Your task to perform on an android device: install app "Mercado Libre" Image 0: 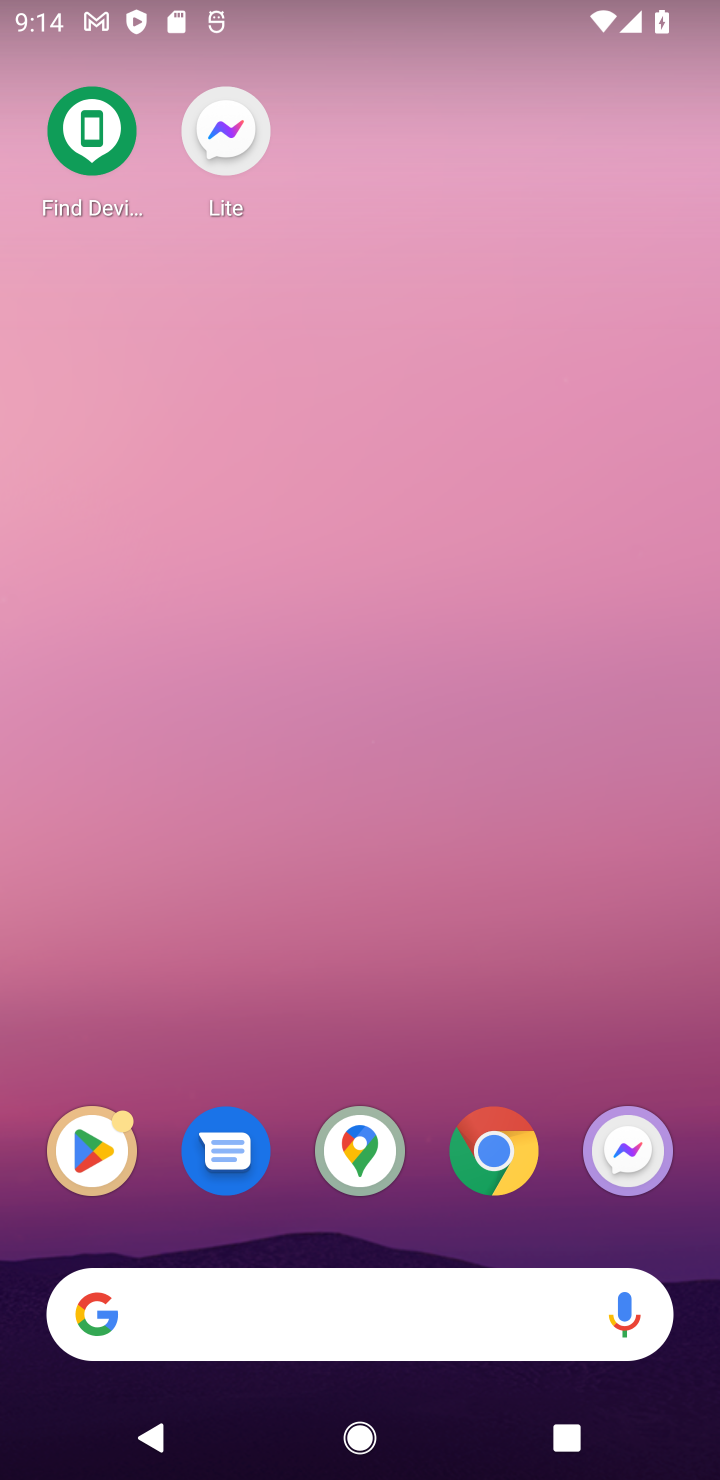
Step 0: drag from (424, 1243) to (319, 281)
Your task to perform on an android device: install app "Mercado Libre" Image 1: 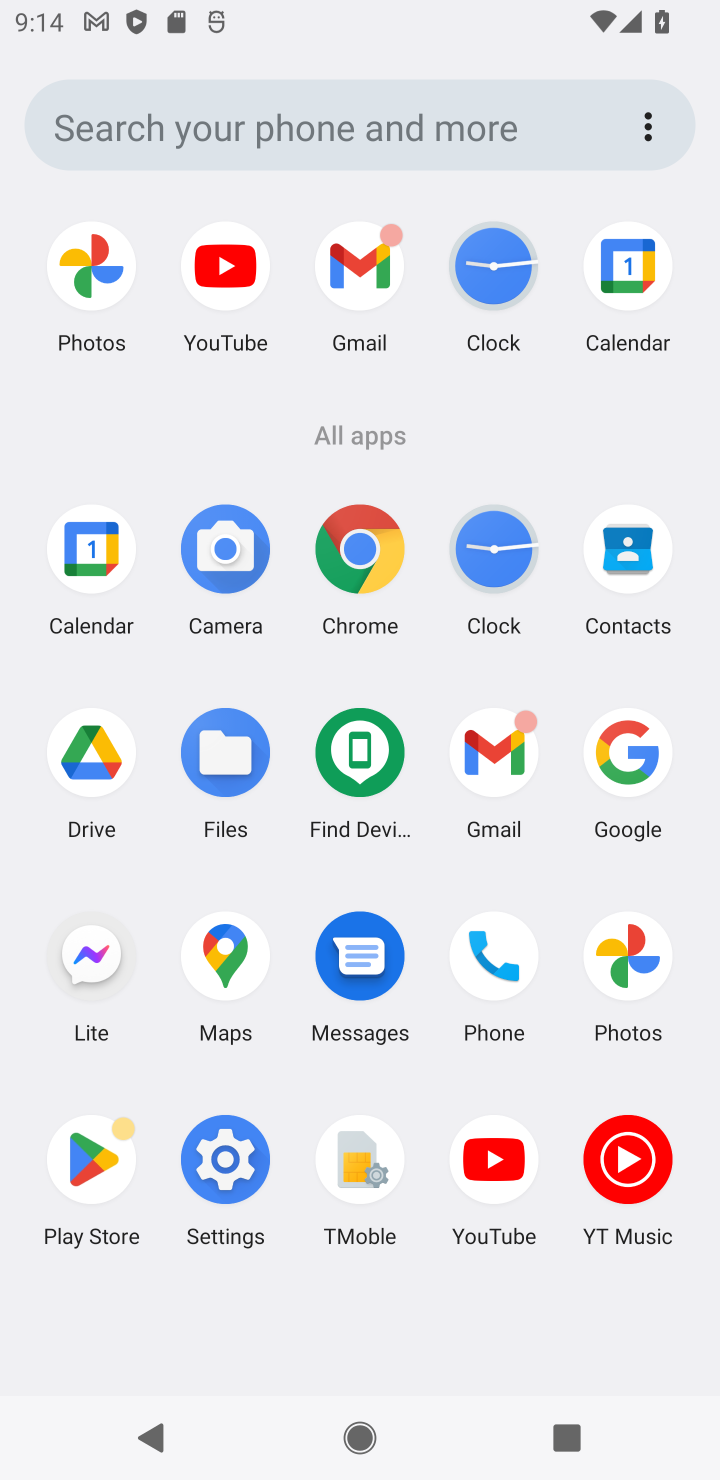
Step 1: click (80, 1169)
Your task to perform on an android device: install app "Mercado Libre" Image 2: 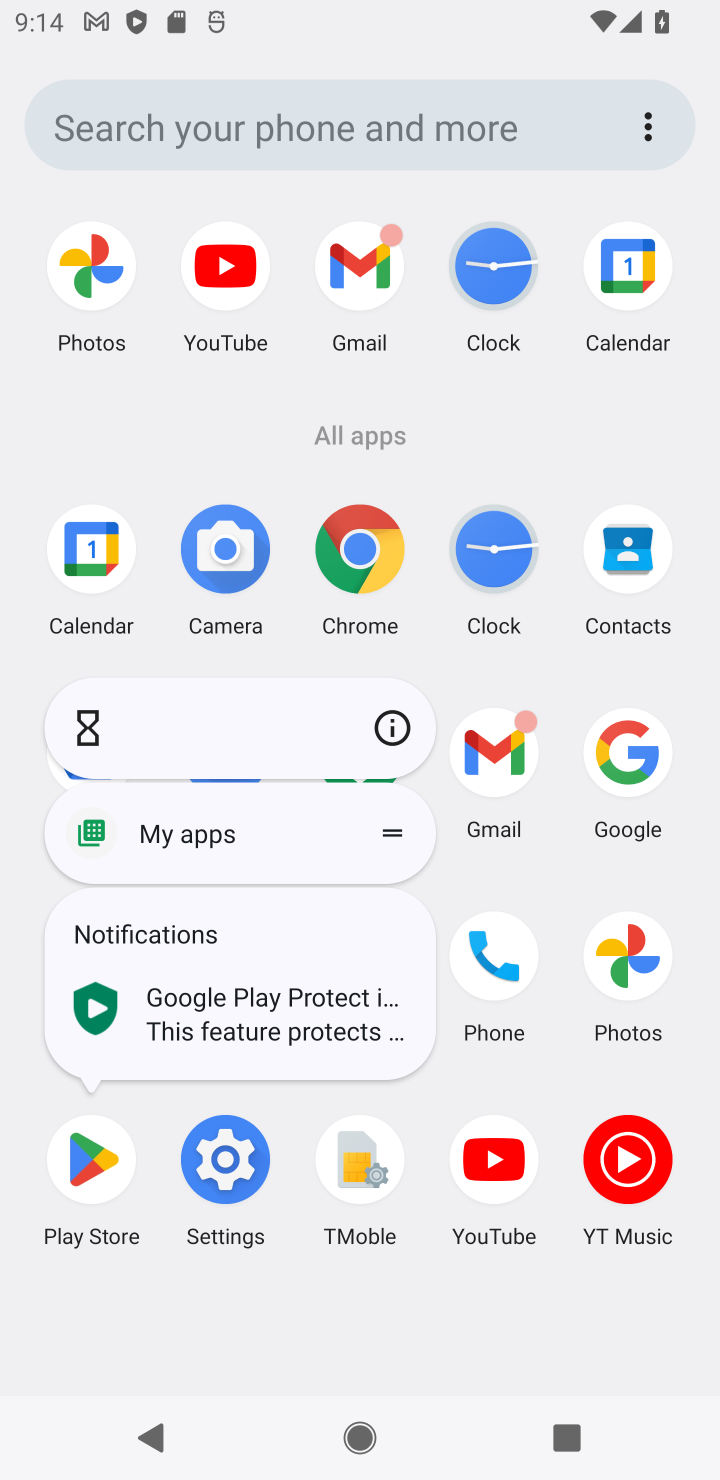
Step 2: click (77, 1173)
Your task to perform on an android device: install app "Mercado Libre" Image 3: 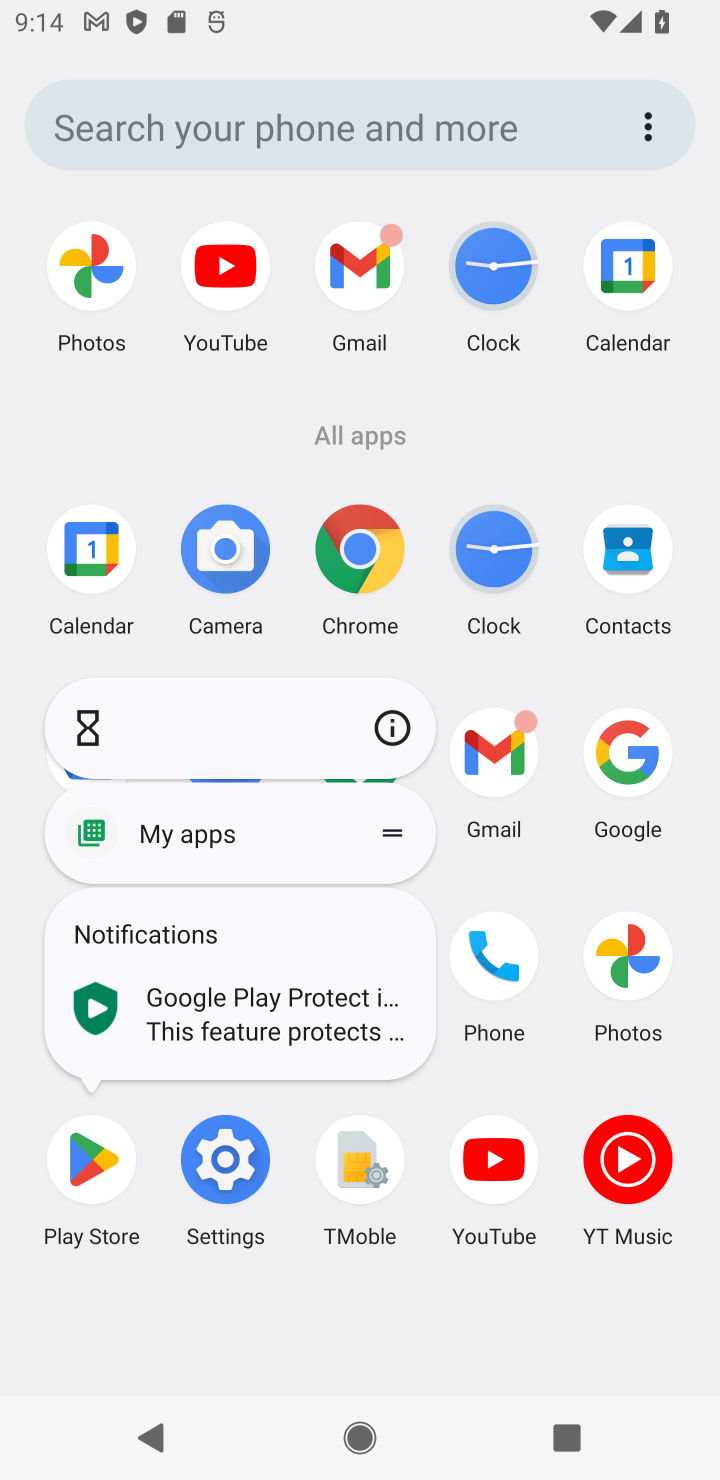
Step 3: click (100, 1183)
Your task to perform on an android device: install app "Mercado Libre" Image 4: 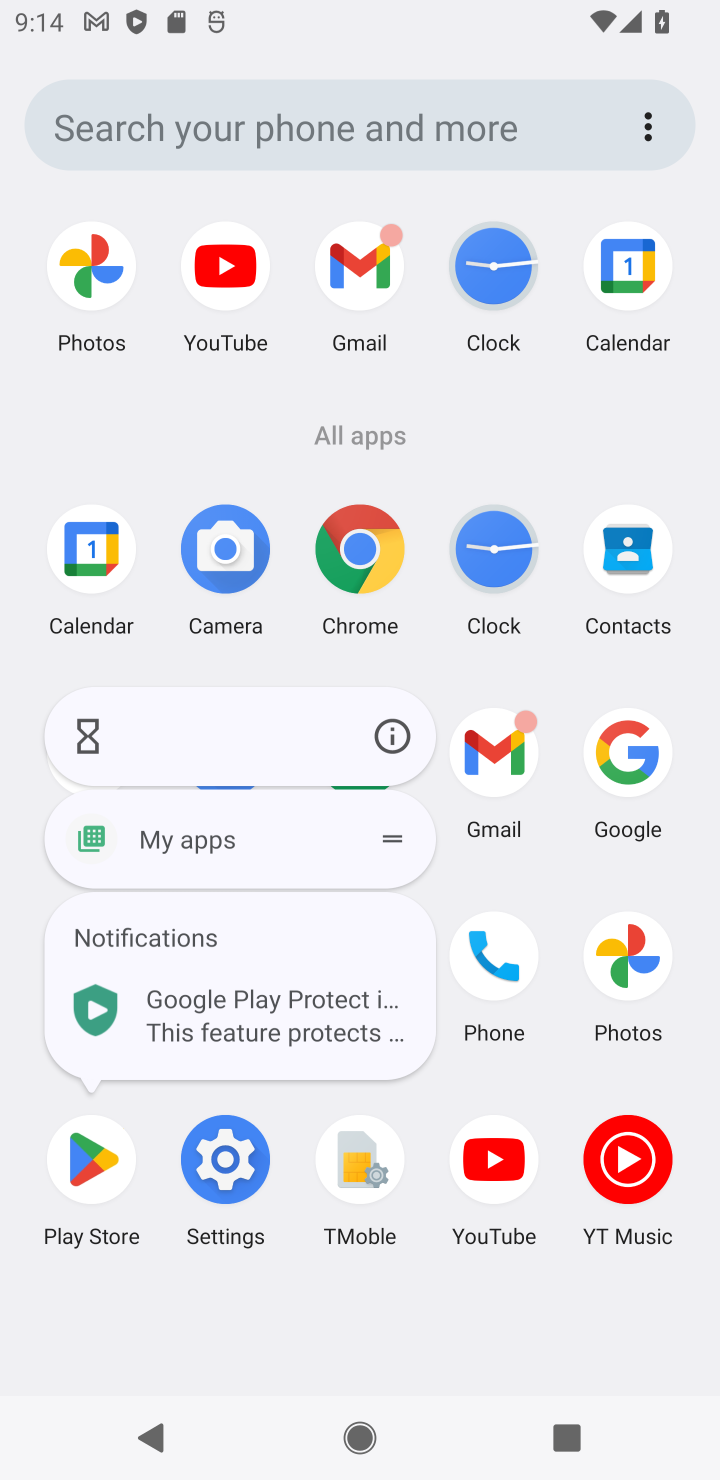
Step 4: click (109, 1183)
Your task to perform on an android device: install app "Mercado Libre" Image 5: 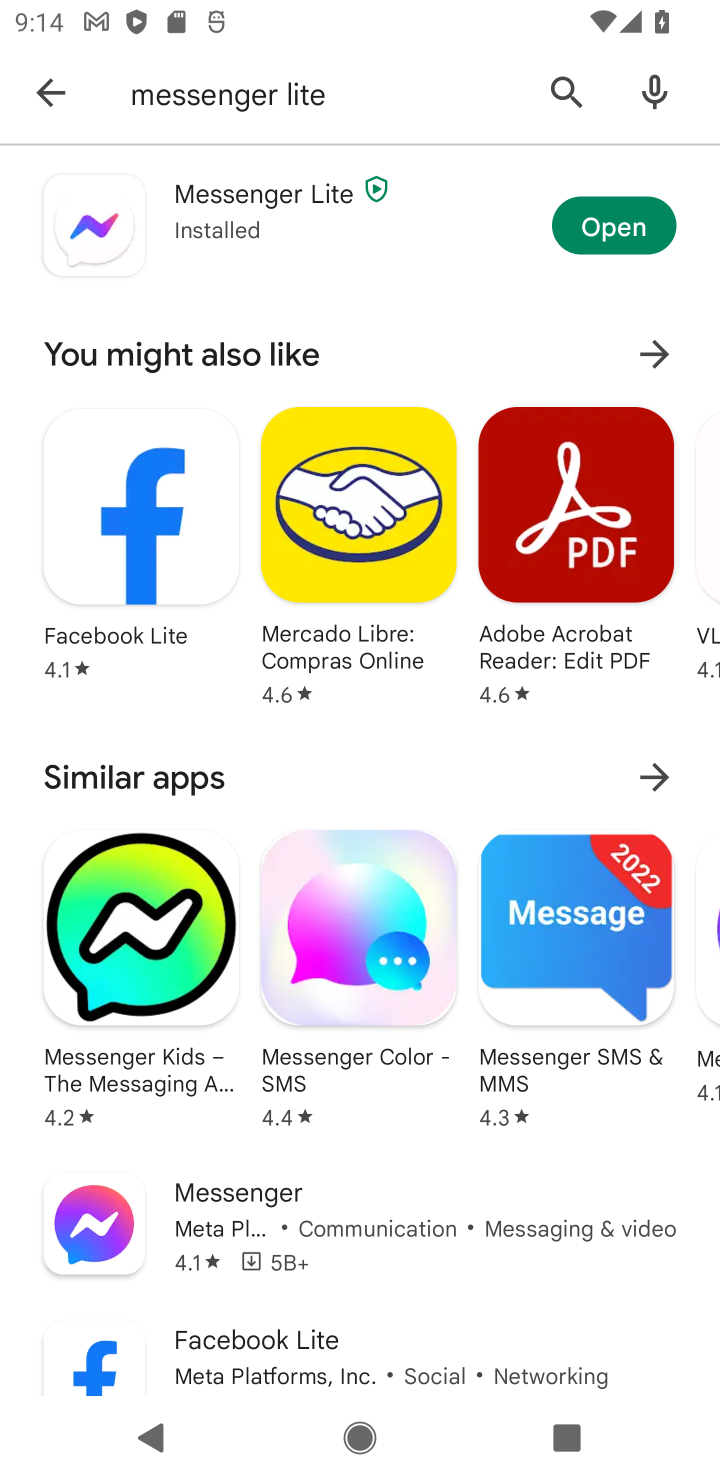
Step 5: click (131, 1218)
Your task to perform on an android device: install app "Mercado Libre" Image 6: 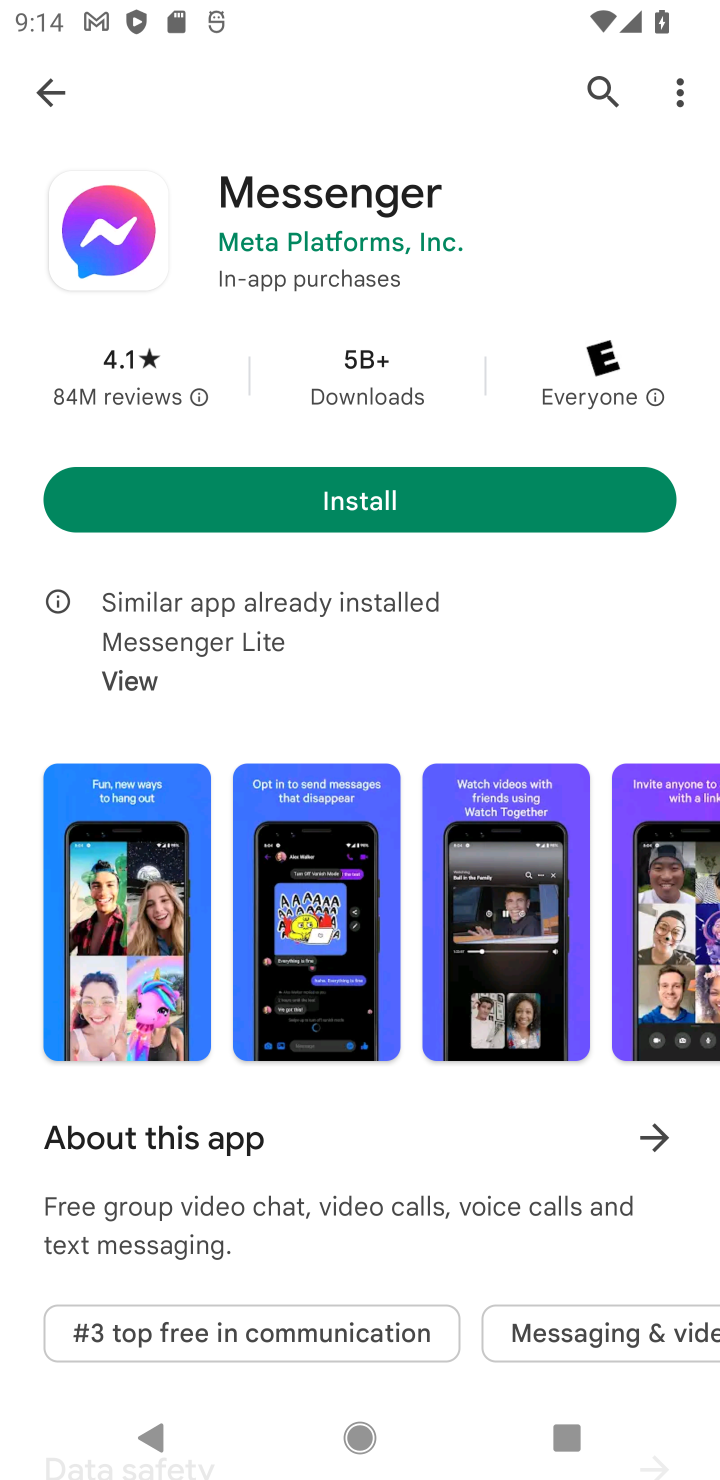
Step 6: click (45, 91)
Your task to perform on an android device: install app "Mercado Libre" Image 7: 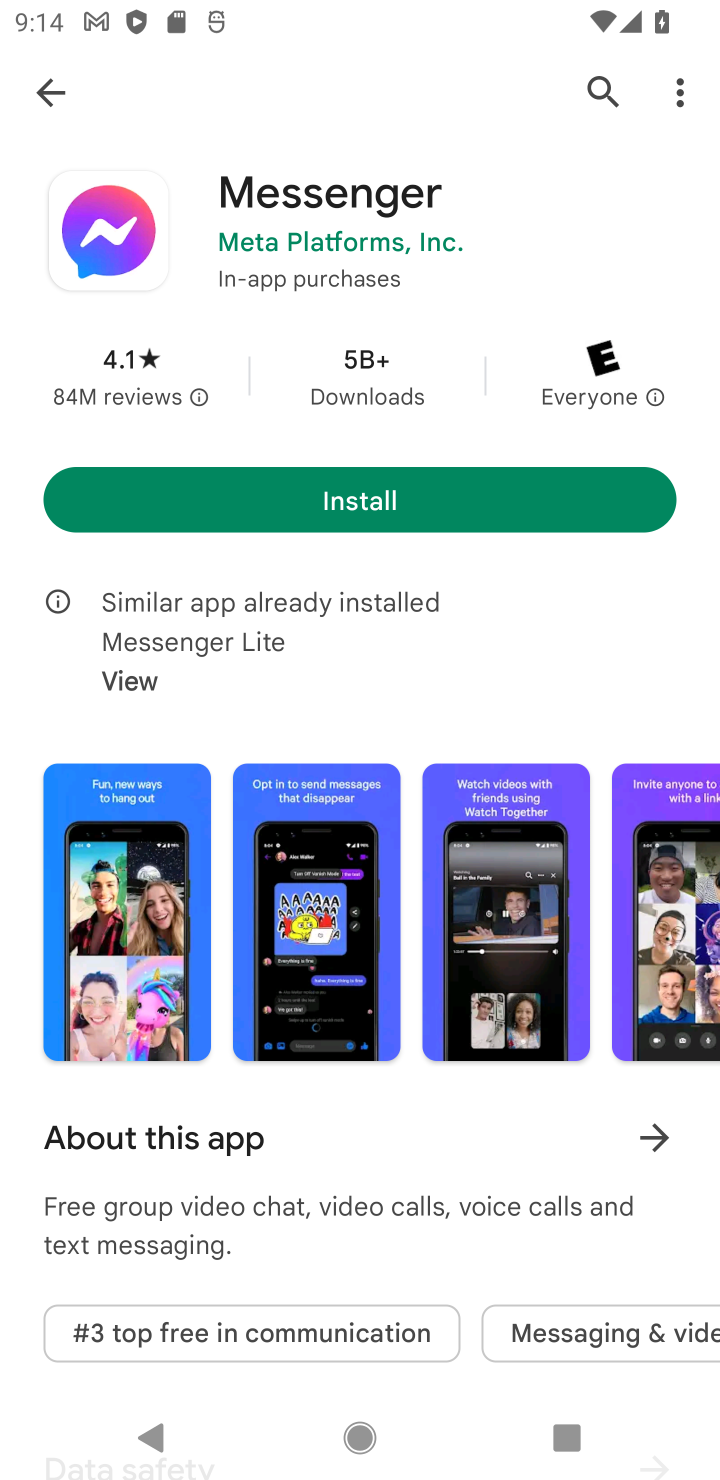
Step 7: click (40, 90)
Your task to perform on an android device: install app "Mercado Libre" Image 8: 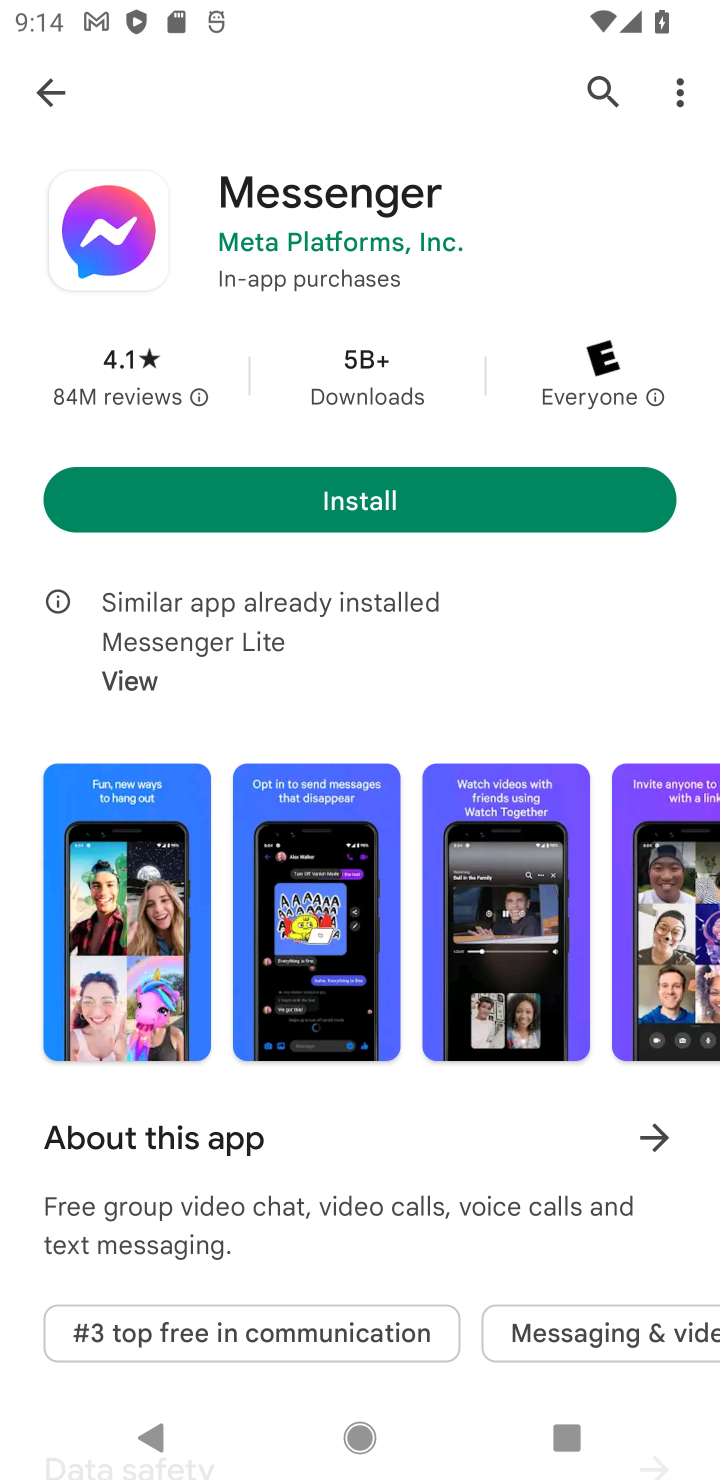
Step 8: click (57, 72)
Your task to perform on an android device: install app "Mercado Libre" Image 9: 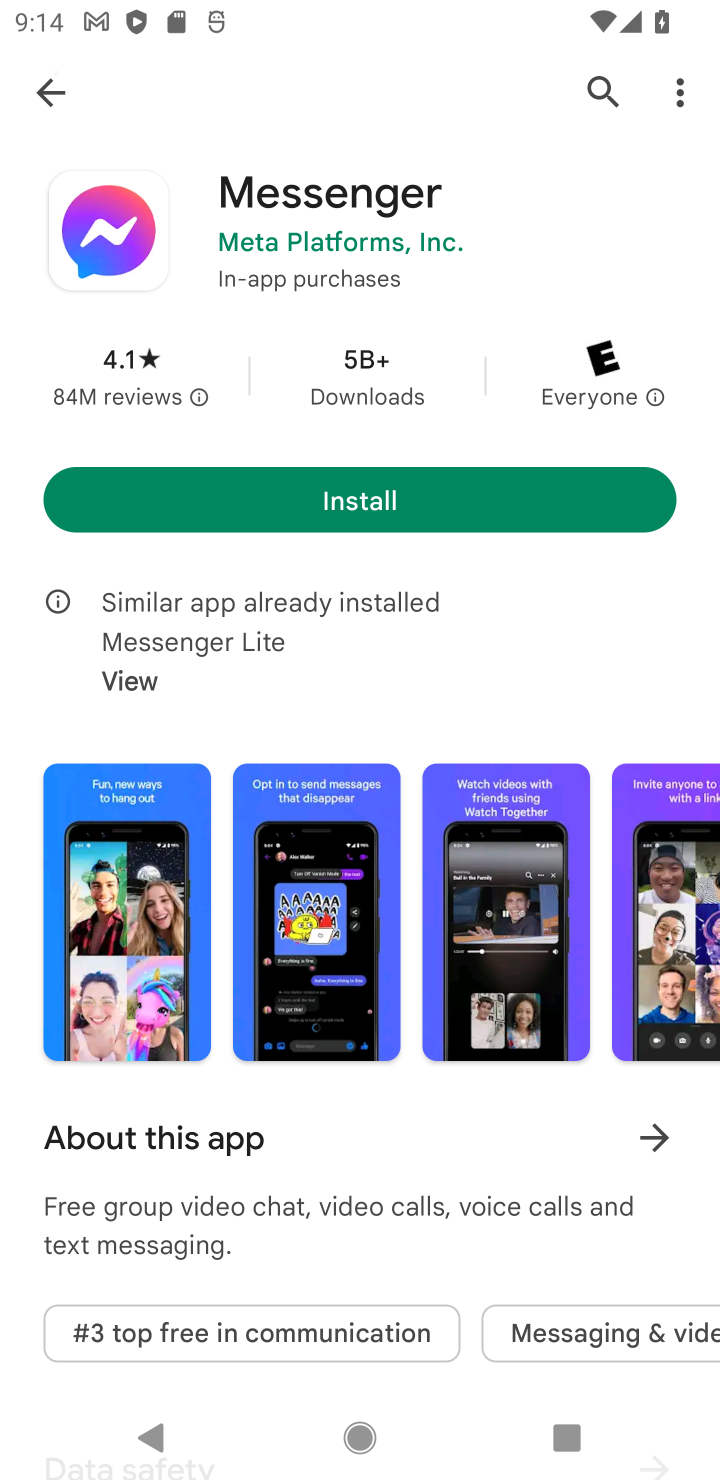
Step 9: click (53, 74)
Your task to perform on an android device: install app "Mercado Libre" Image 10: 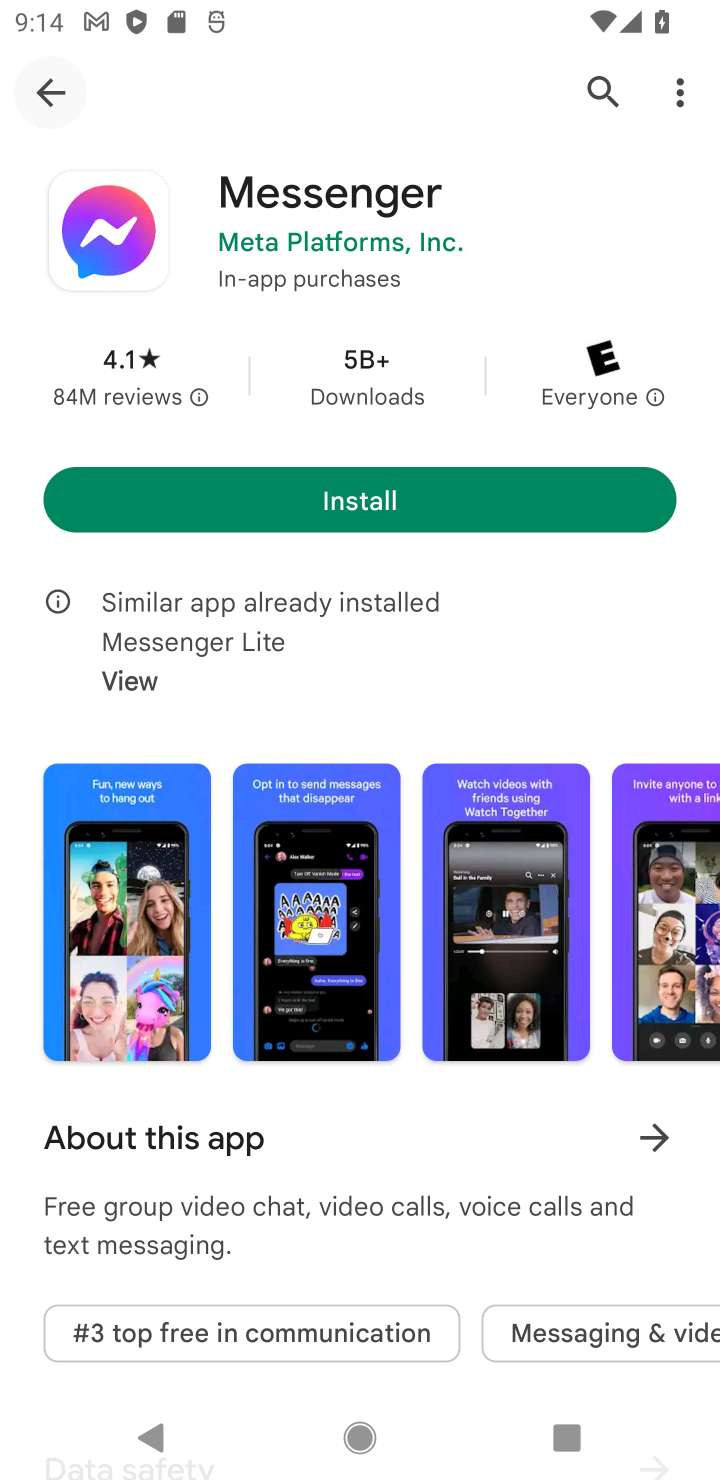
Step 10: click (62, 68)
Your task to perform on an android device: install app "Mercado Libre" Image 11: 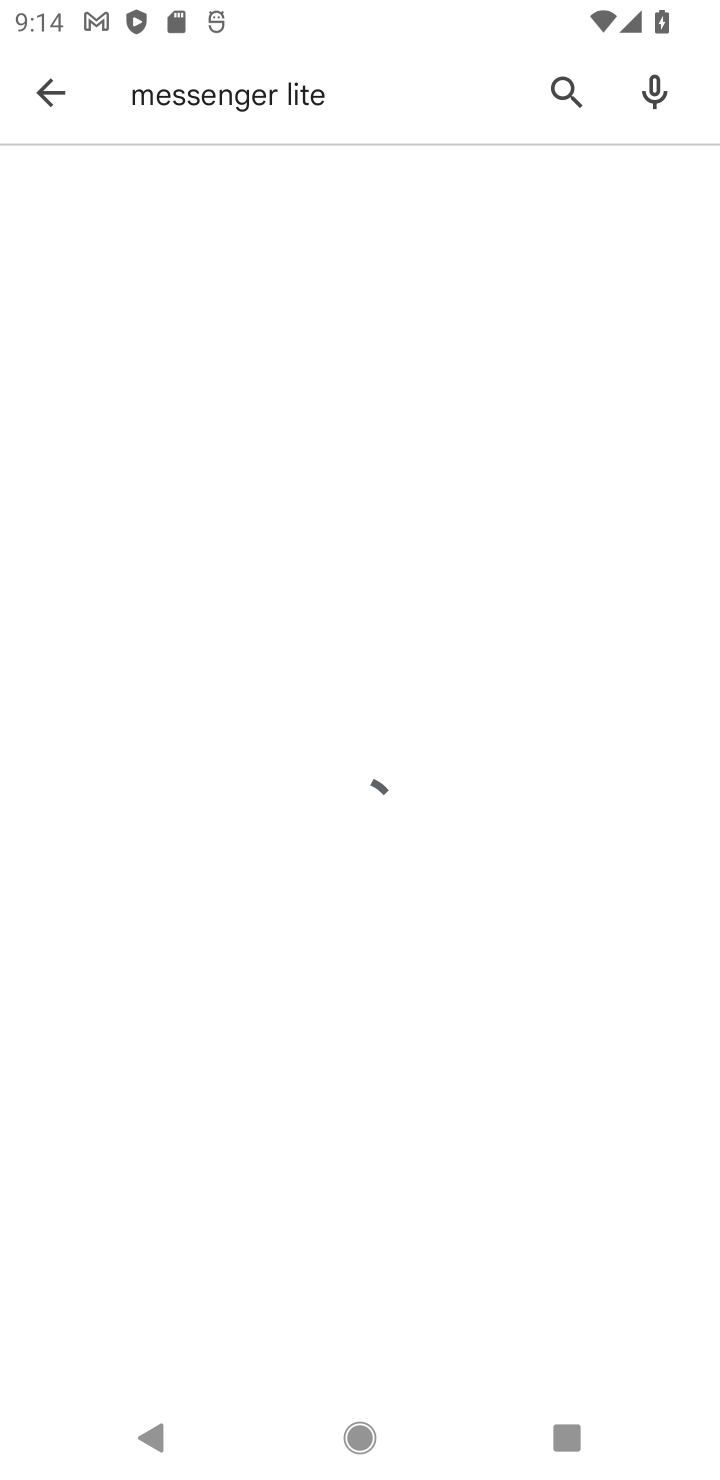
Step 11: click (65, 85)
Your task to perform on an android device: install app "Mercado Libre" Image 12: 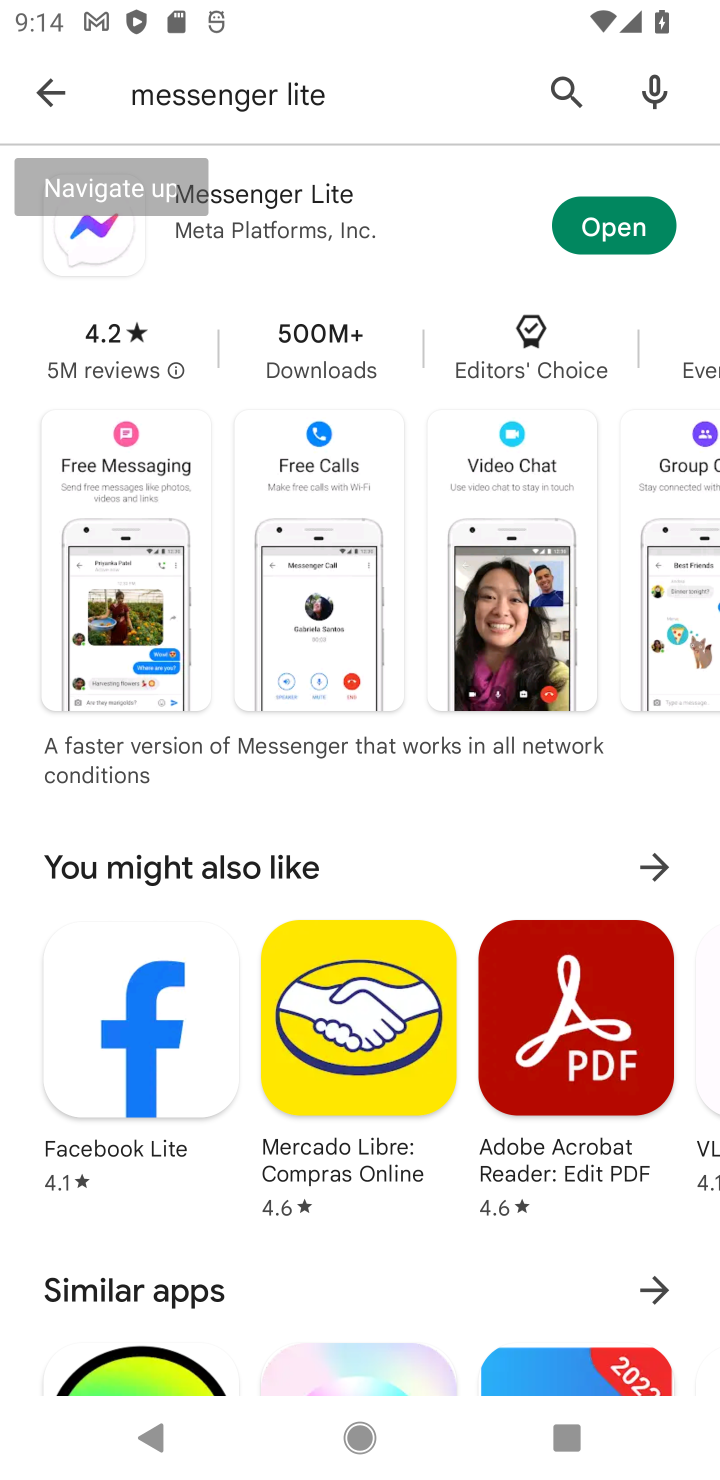
Step 12: click (46, 100)
Your task to perform on an android device: install app "Mercado Libre" Image 13: 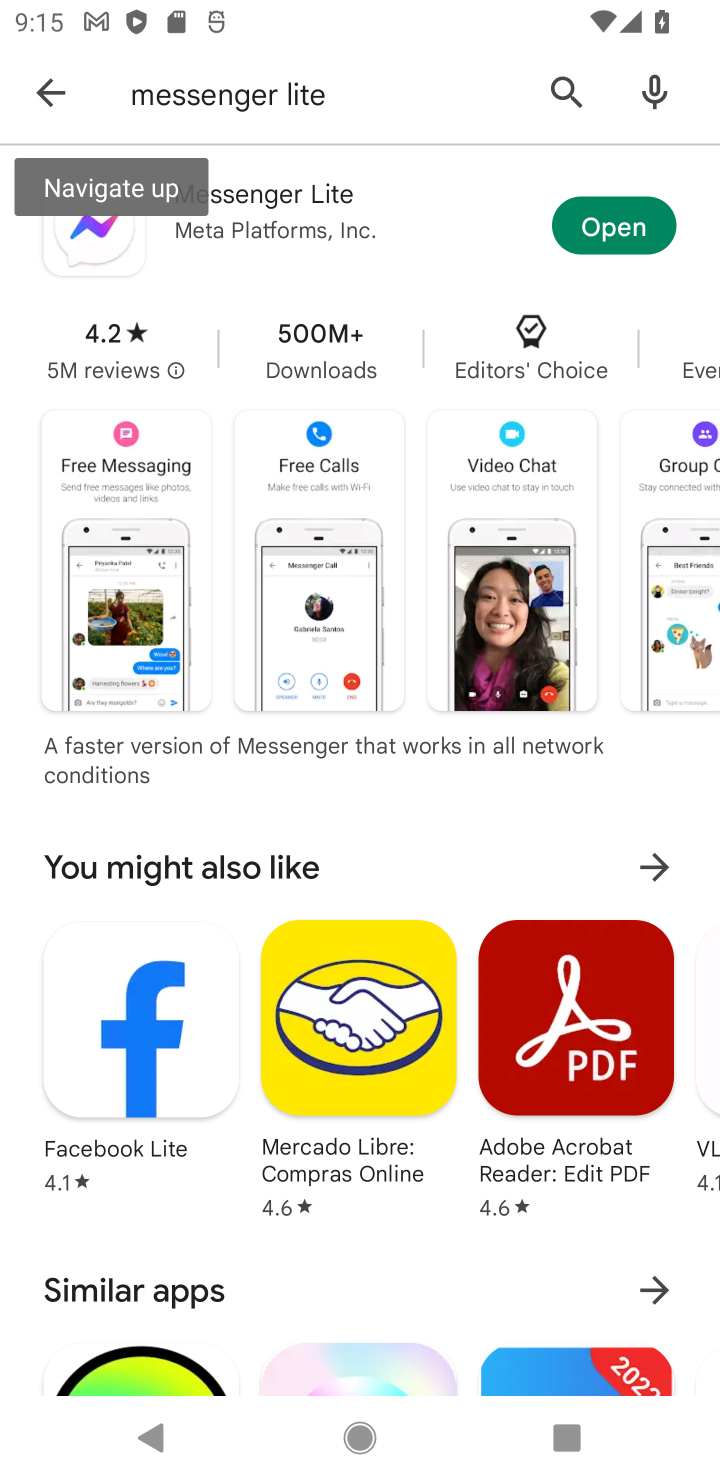
Step 13: click (54, 85)
Your task to perform on an android device: install app "Mercado Libre" Image 14: 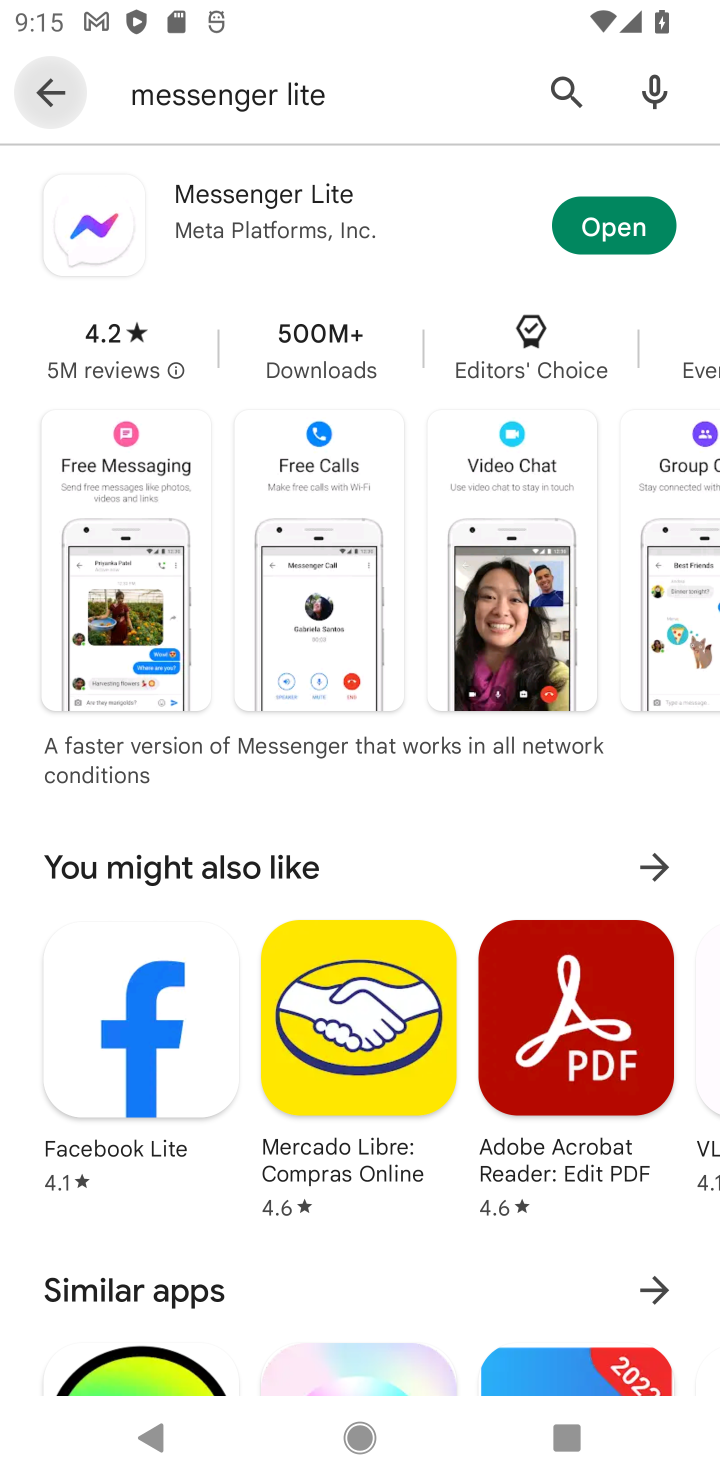
Step 14: click (163, 97)
Your task to perform on an android device: install app "Mercado Libre" Image 15: 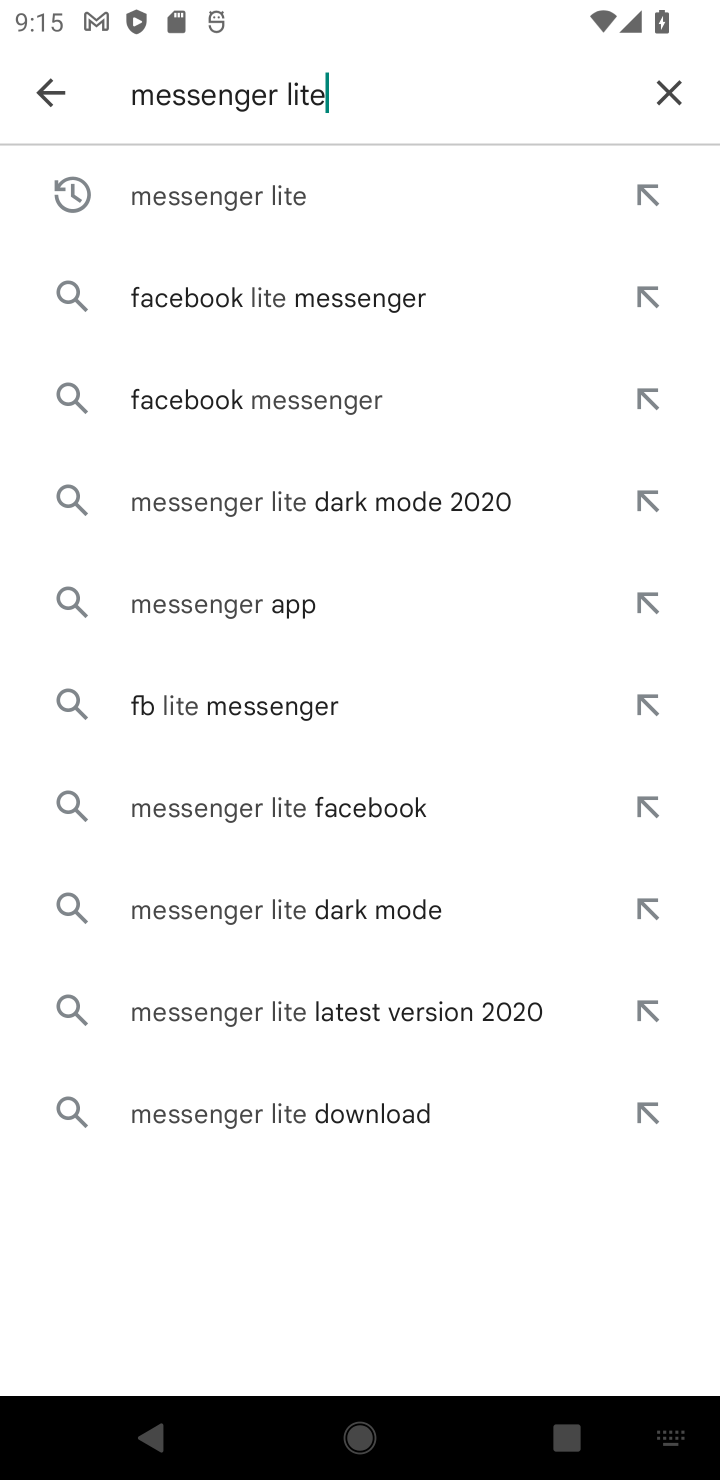
Step 15: click (48, 81)
Your task to perform on an android device: install app "Mercado Libre" Image 16: 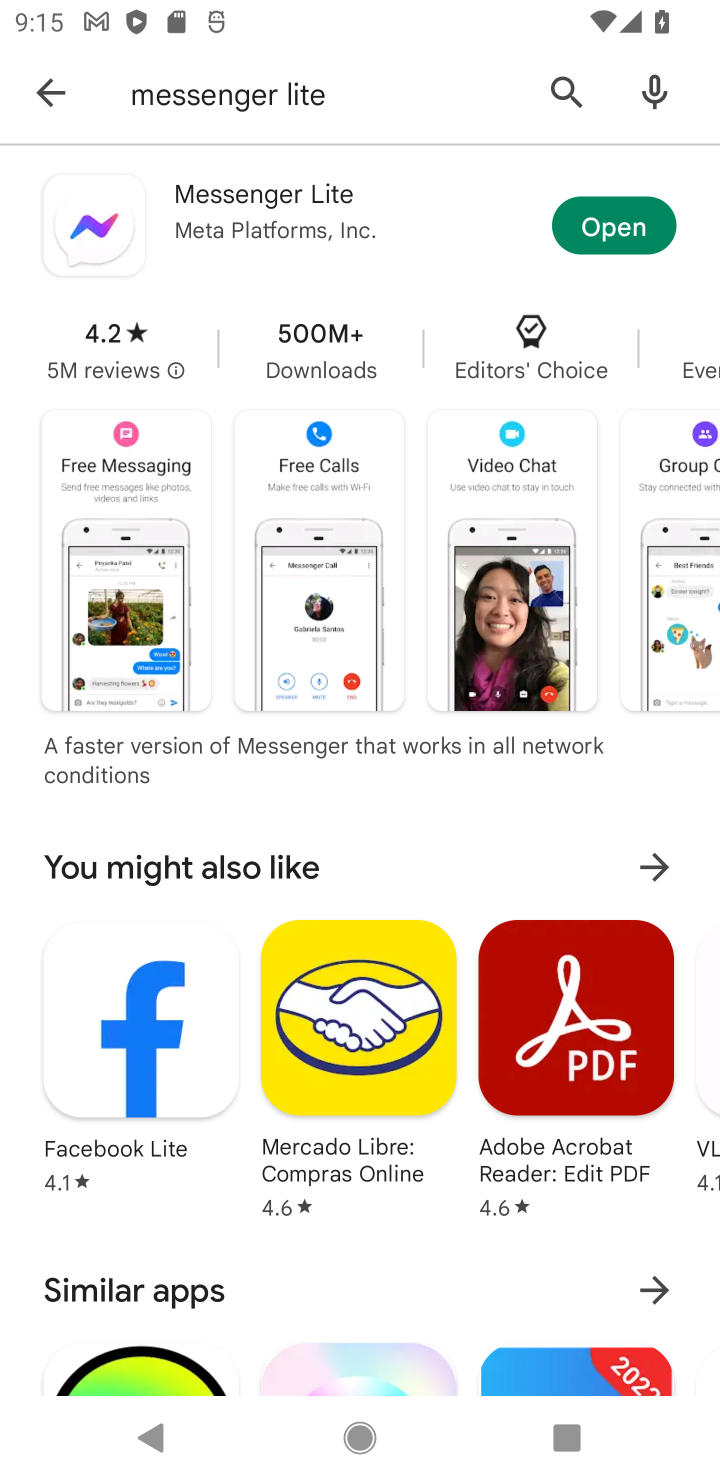
Step 16: click (672, 62)
Your task to perform on an android device: install app "Mercado Libre" Image 17: 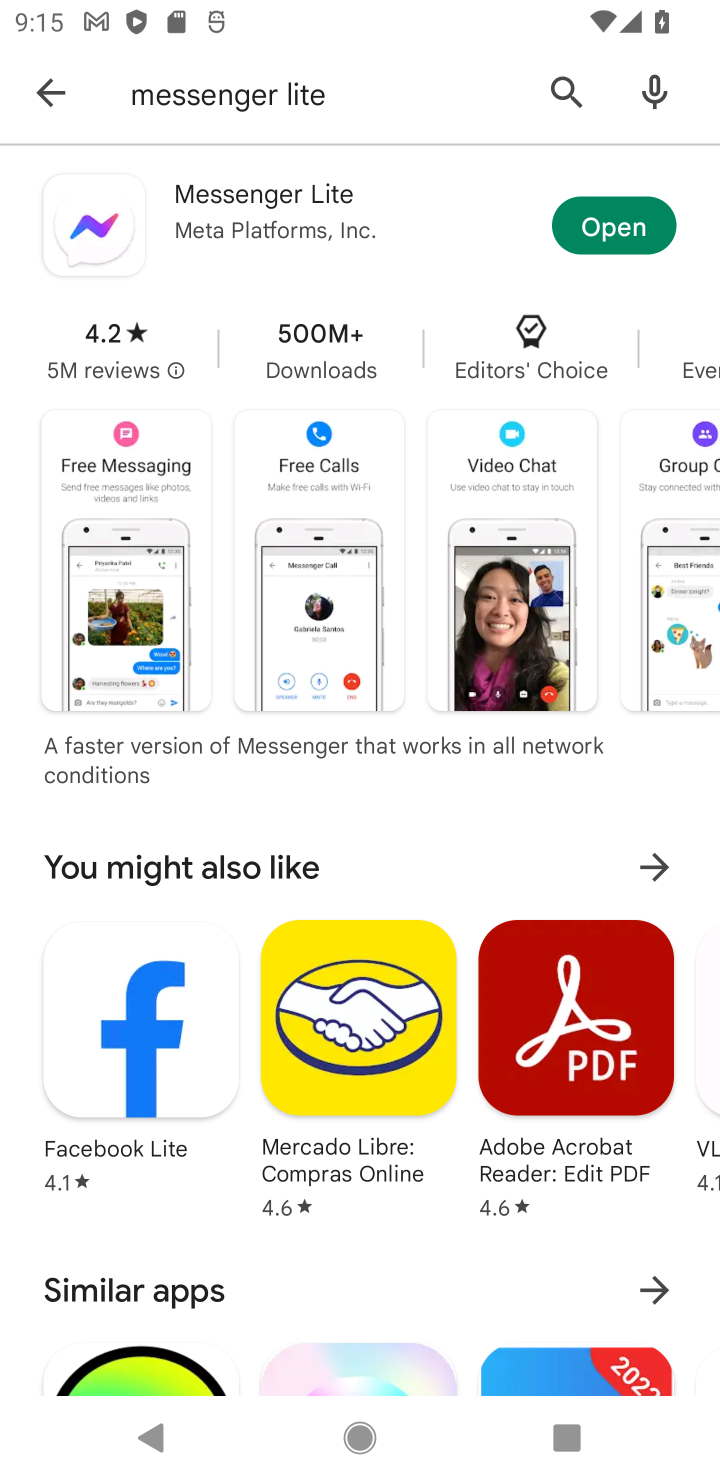
Step 17: click (661, 76)
Your task to perform on an android device: install app "Mercado Libre" Image 18: 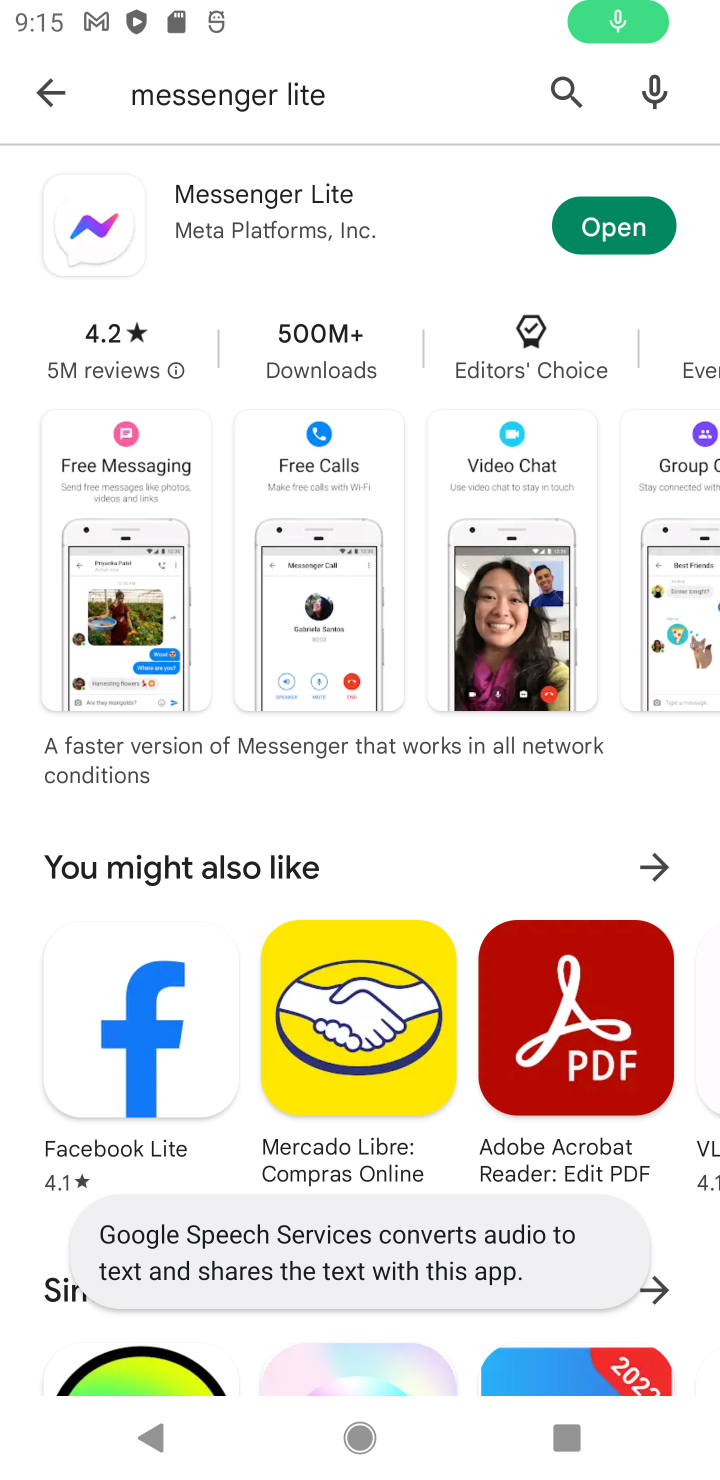
Step 18: drag from (66, 90) to (326, 98)
Your task to perform on an android device: install app "Mercado Libre" Image 19: 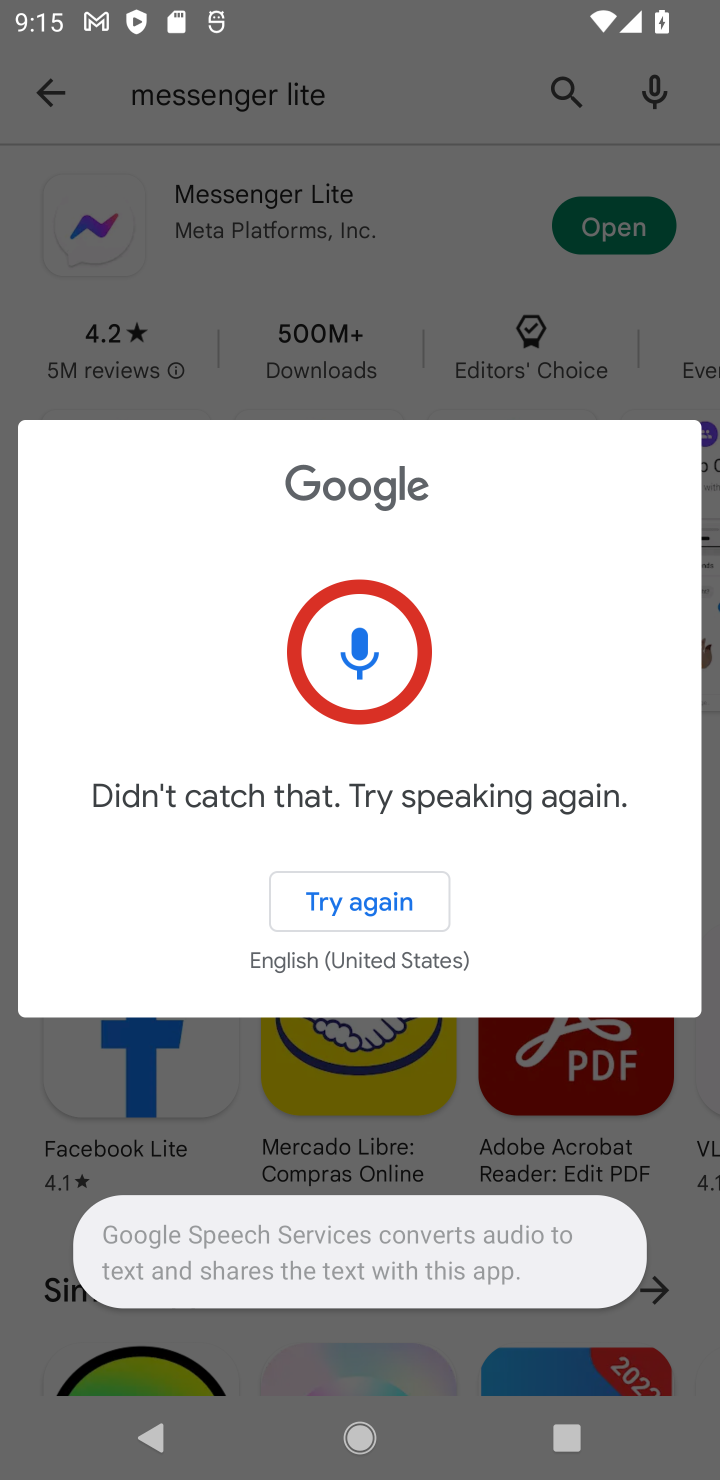
Step 19: click (234, 346)
Your task to perform on an android device: install app "Mercado Libre" Image 20: 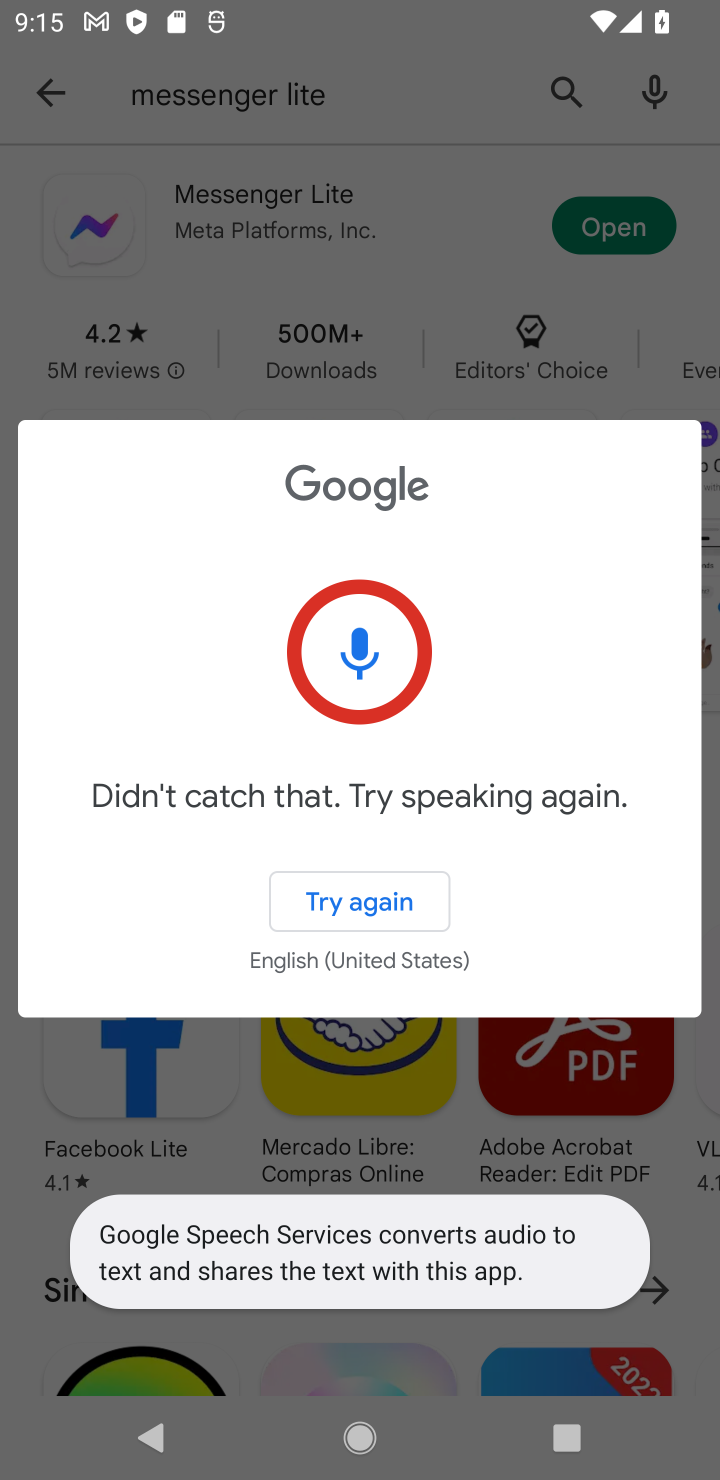
Step 20: click (236, 344)
Your task to perform on an android device: install app "Mercado Libre" Image 21: 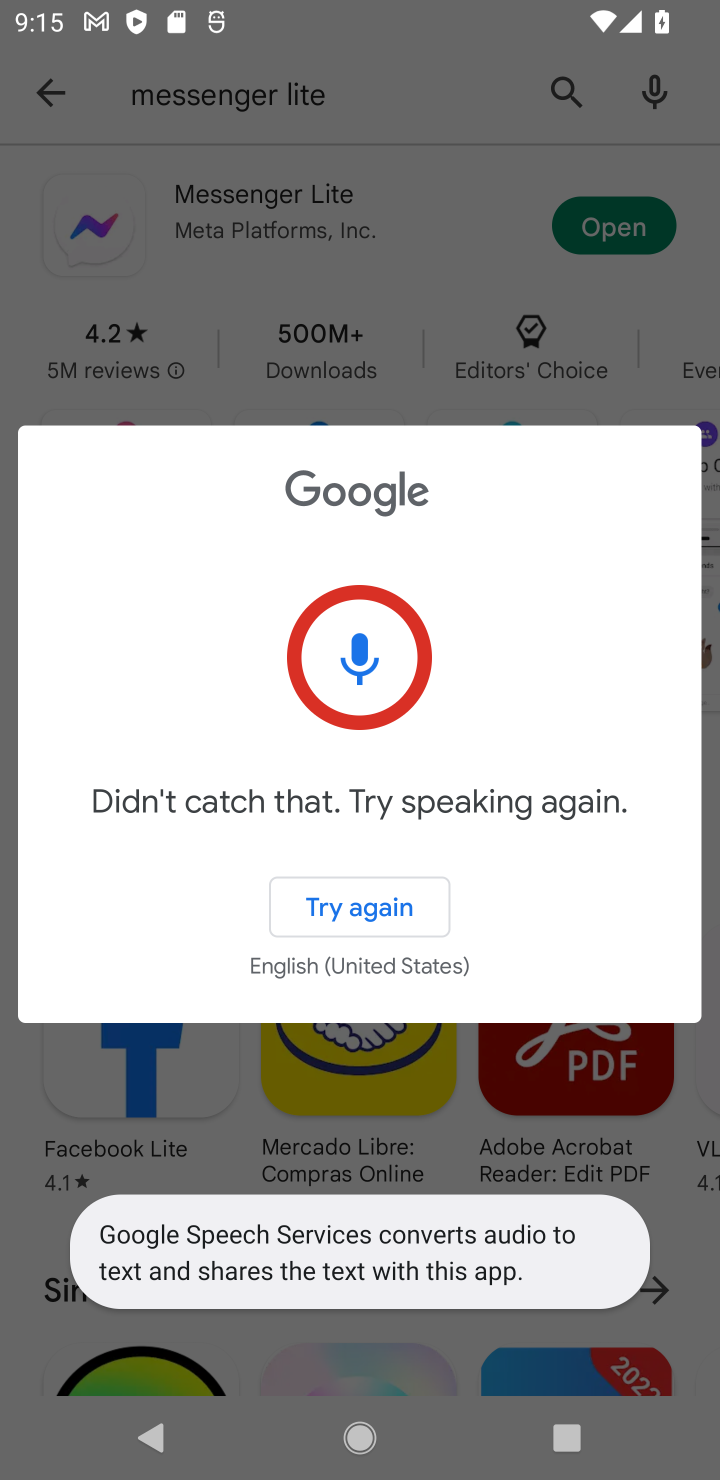
Step 21: click (46, 93)
Your task to perform on an android device: install app "Mercado Libre" Image 22: 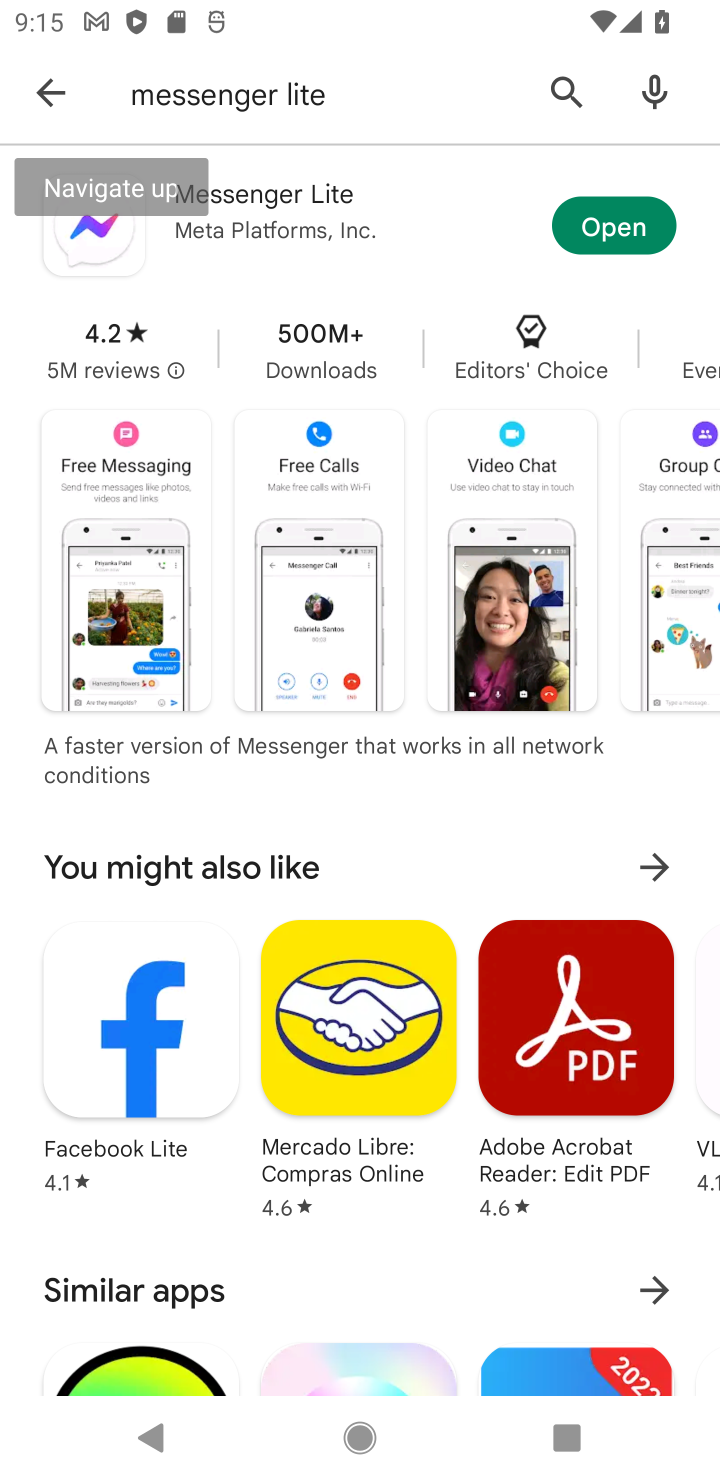
Step 22: click (58, 84)
Your task to perform on an android device: install app "Mercado Libre" Image 23: 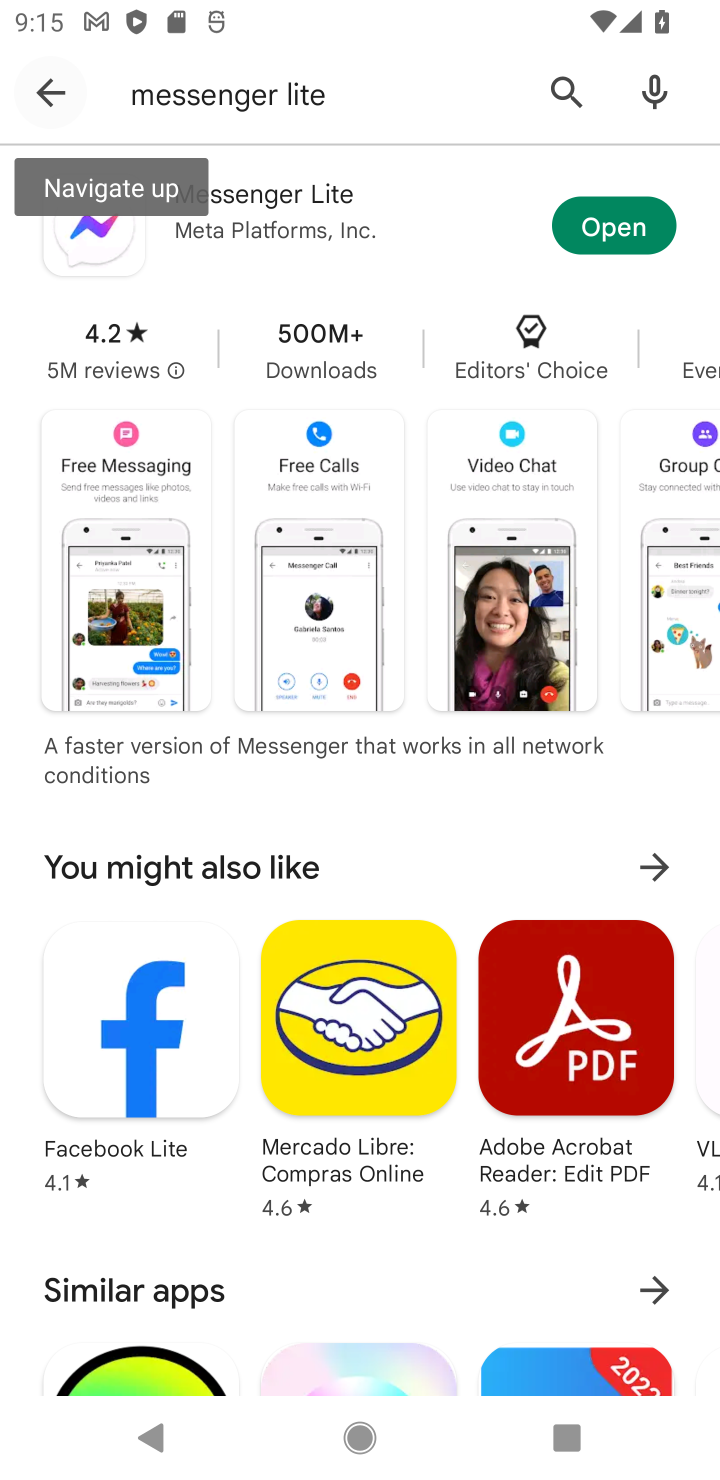
Step 23: click (334, 97)
Your task to perform on an android device: install app "Mercado Libre" Image 24: 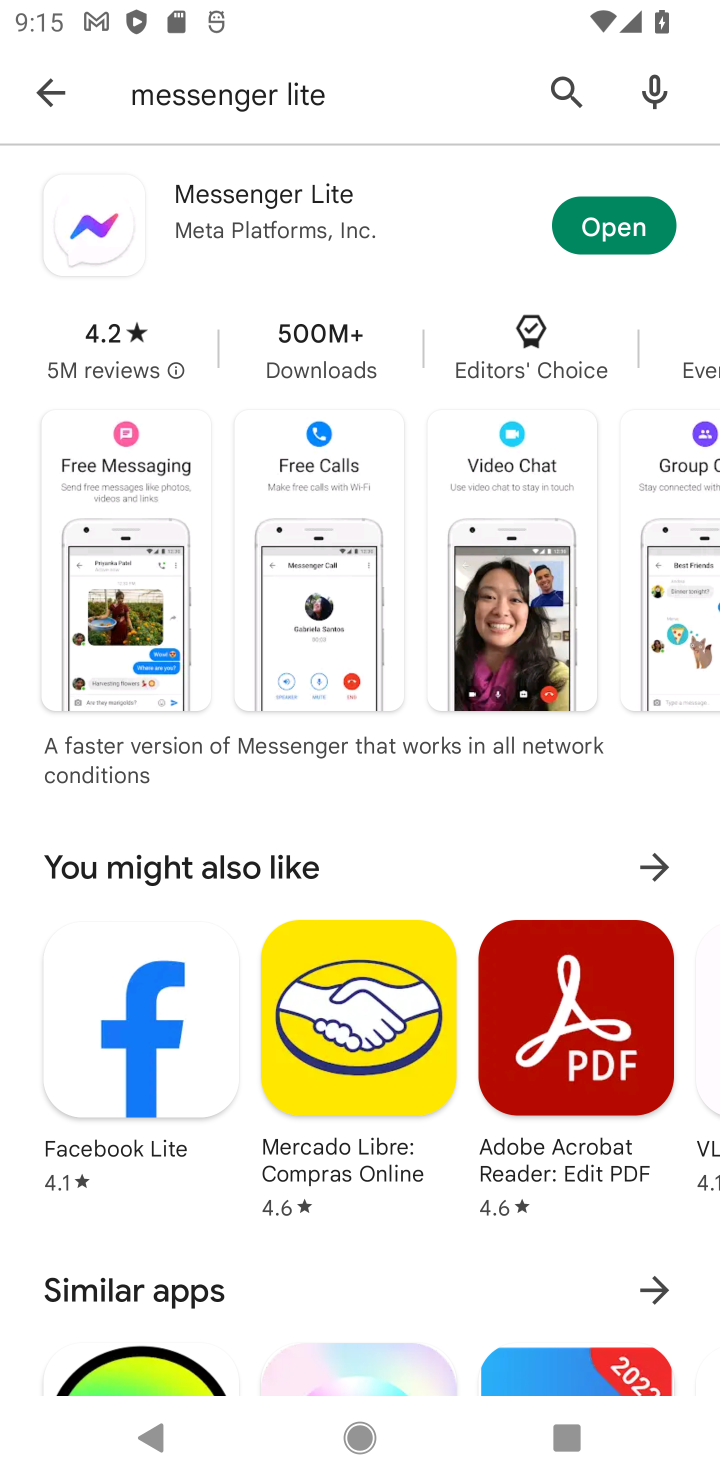
Step 24: click (242, 95)
Your task to perform on an android device: install app "Mercado Libre" Image 25: 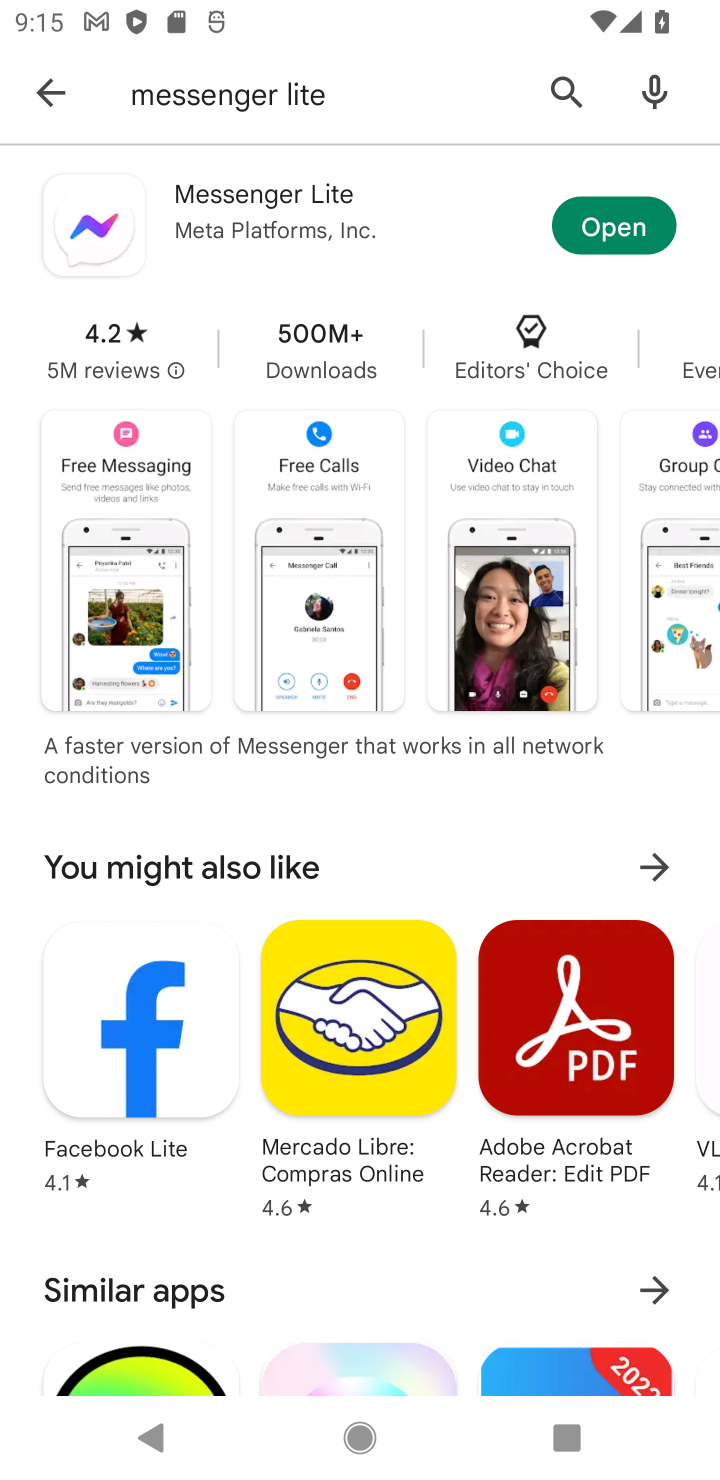
Step 25: click (276, 148)
Your task to perform on an android device: install app "Mercado Libre" Image 26: 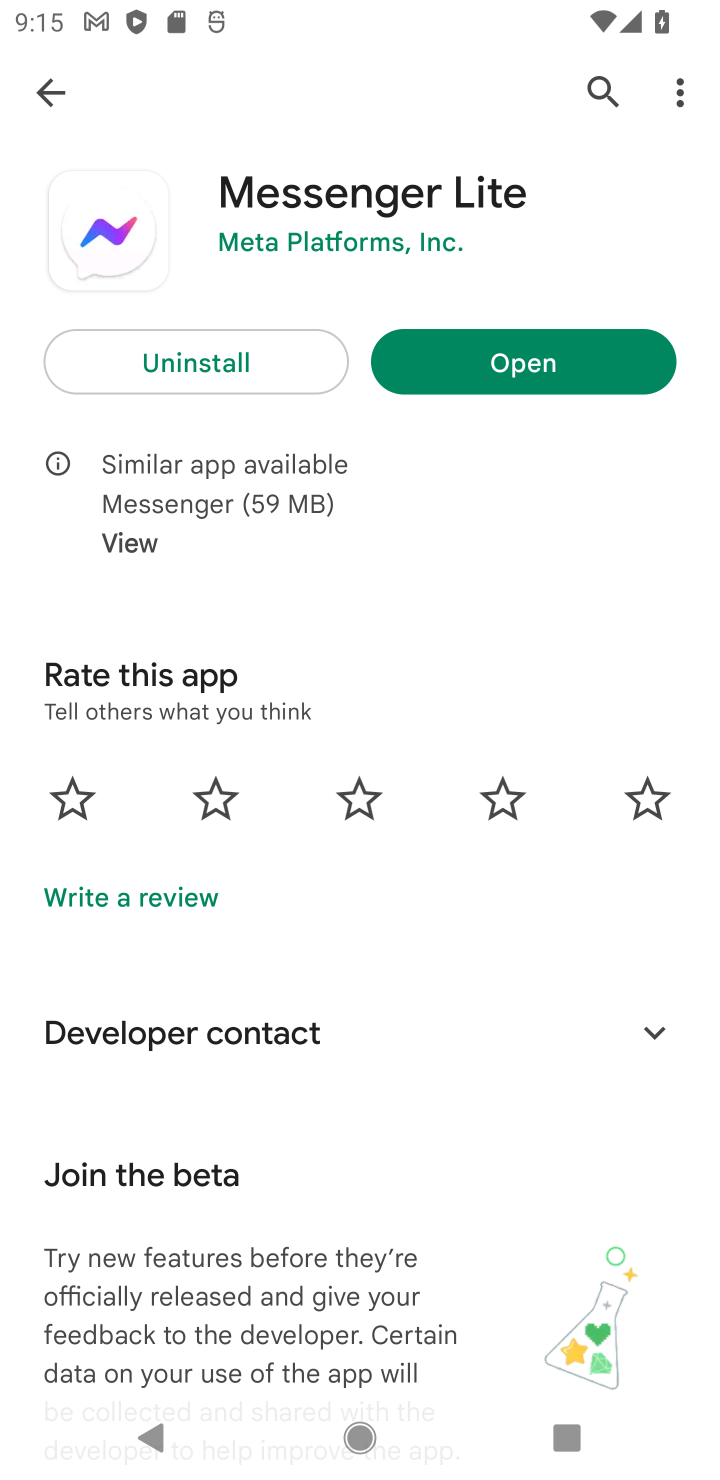
Step 26: click (36, 87)
Your task to perform on an android device: install app "Mercado Libre" Image 27: 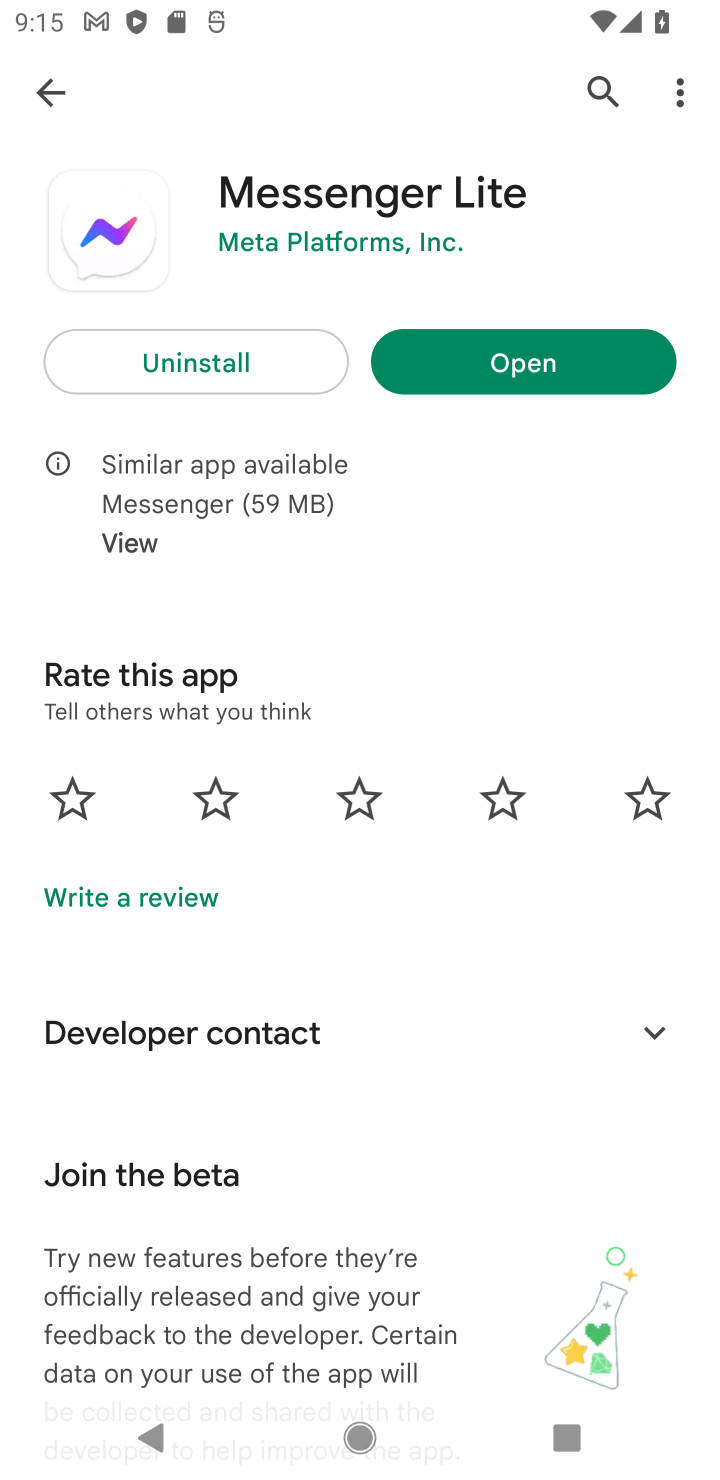
Step 27: click (38, 85)
Your task to perform on an android device: install app "Mercado Libre" Image 28: 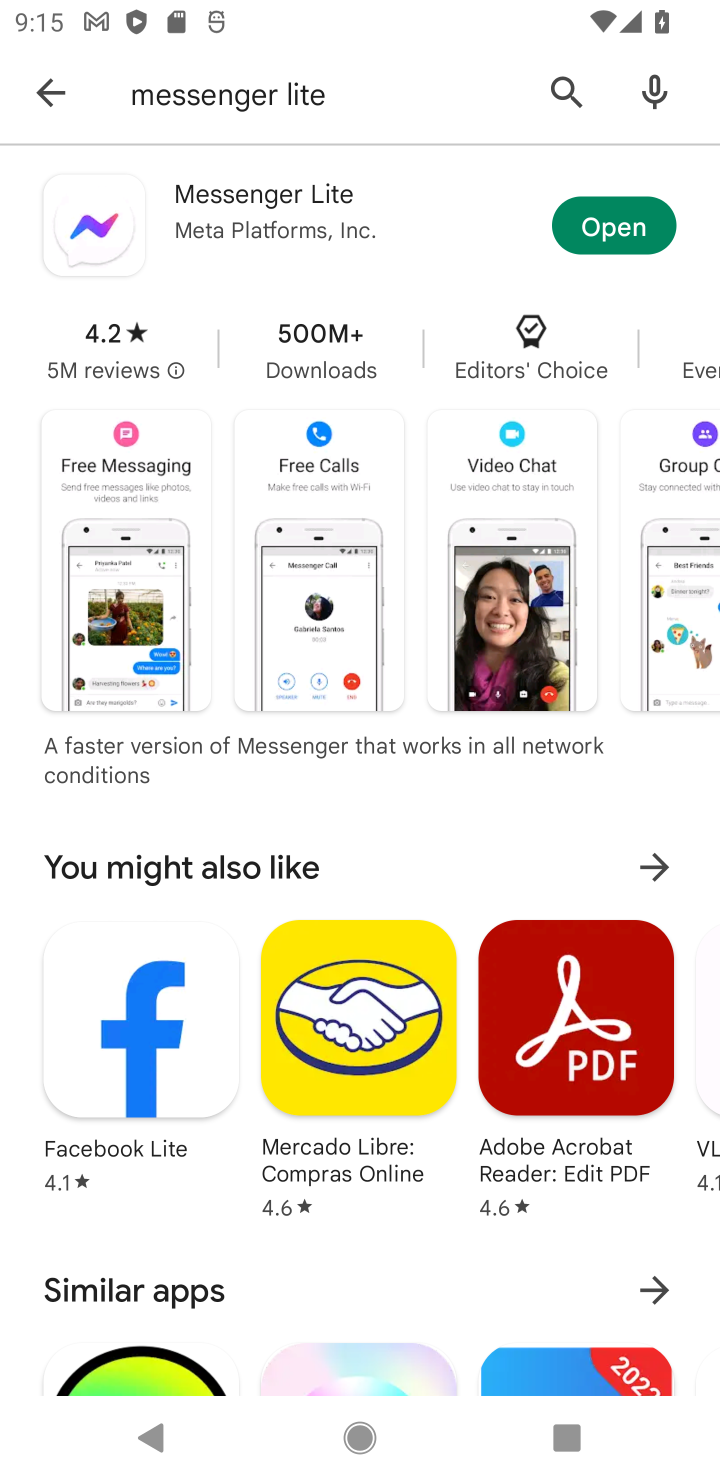
Step 28: click (58, 80)
Your task to perform on an android device: install app "Mercado Libre" Image 29: 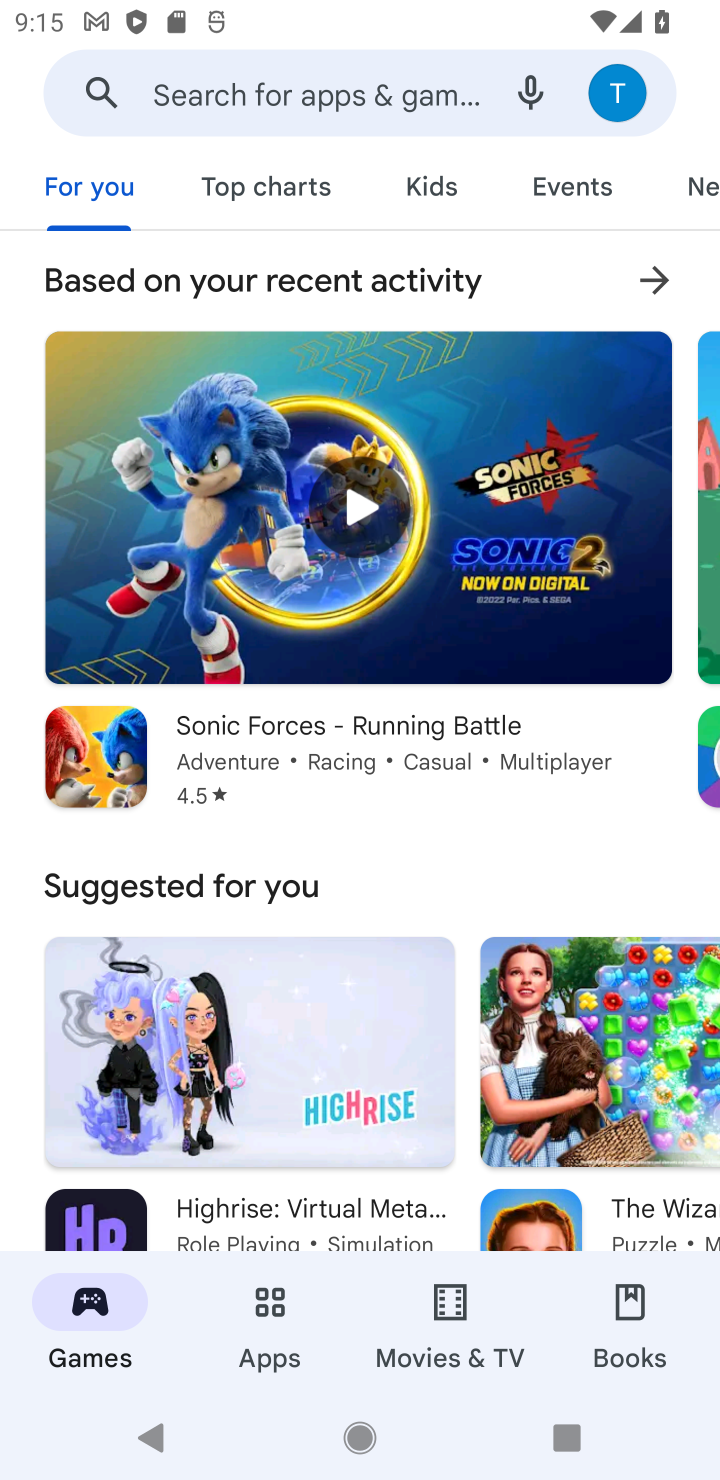
Step 29: click (403, 96)
Your task to perform on an android device: install app "Mercado Libre" Image 30: 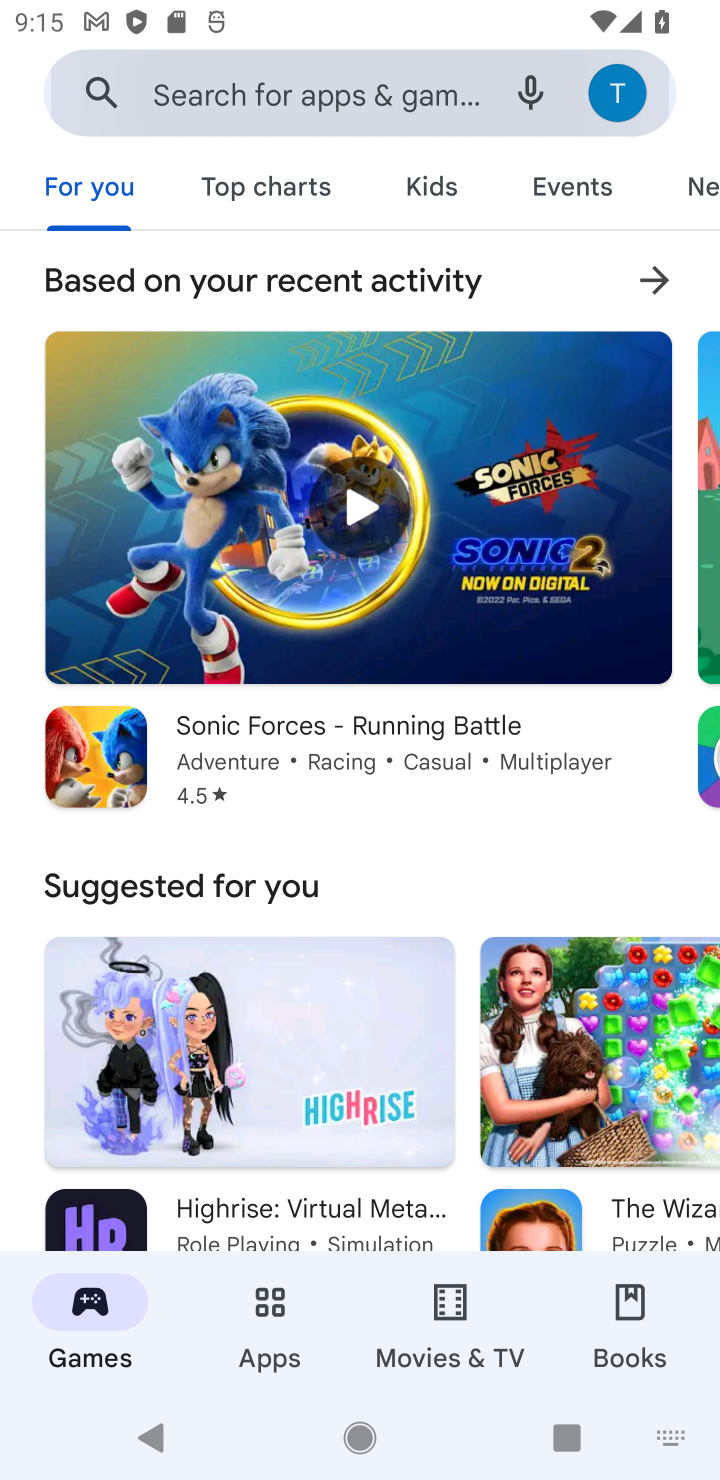
Step 30: click (245, 105)
Your task to perform on an android device: install app "Mercado Libre" Image 31: 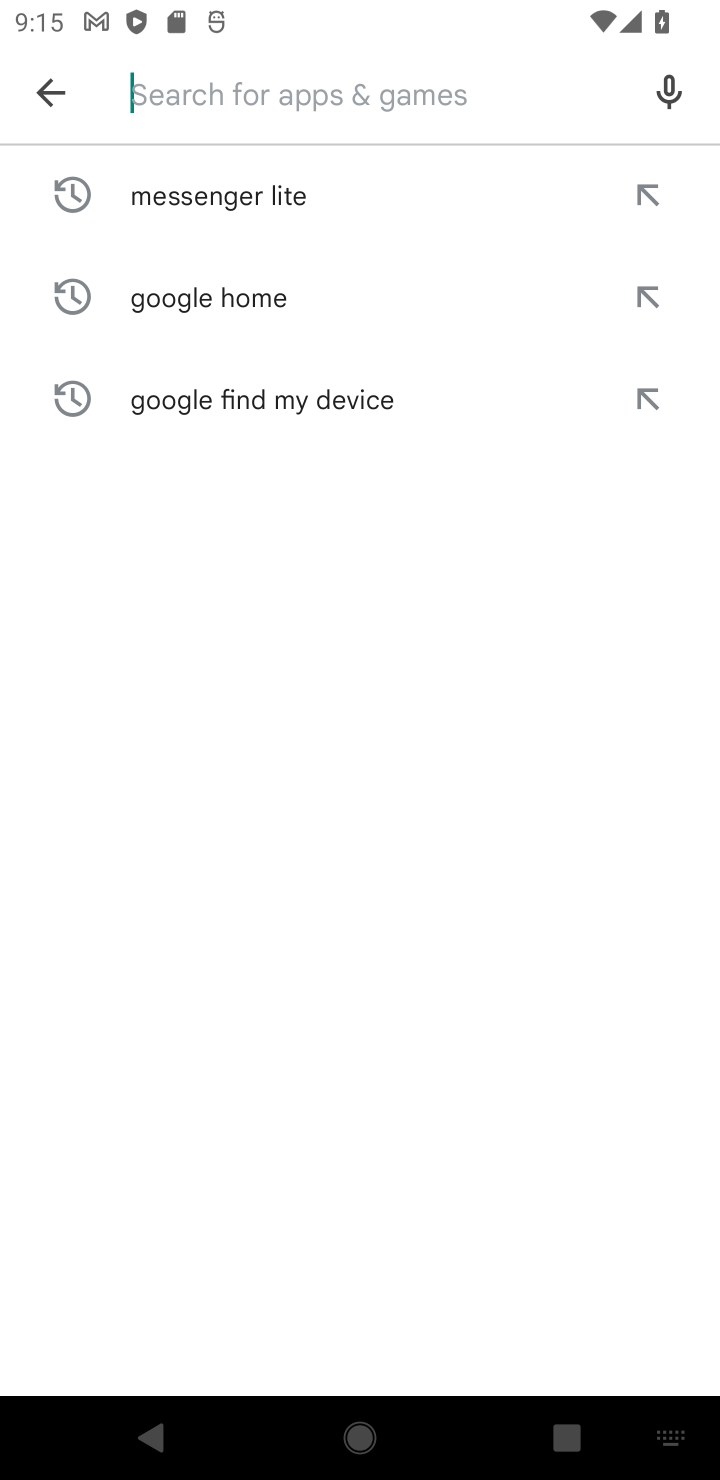
Step 31: type "mercado libre"
Your task to perform on an android device: install app "Mercado Libre" Image 32: 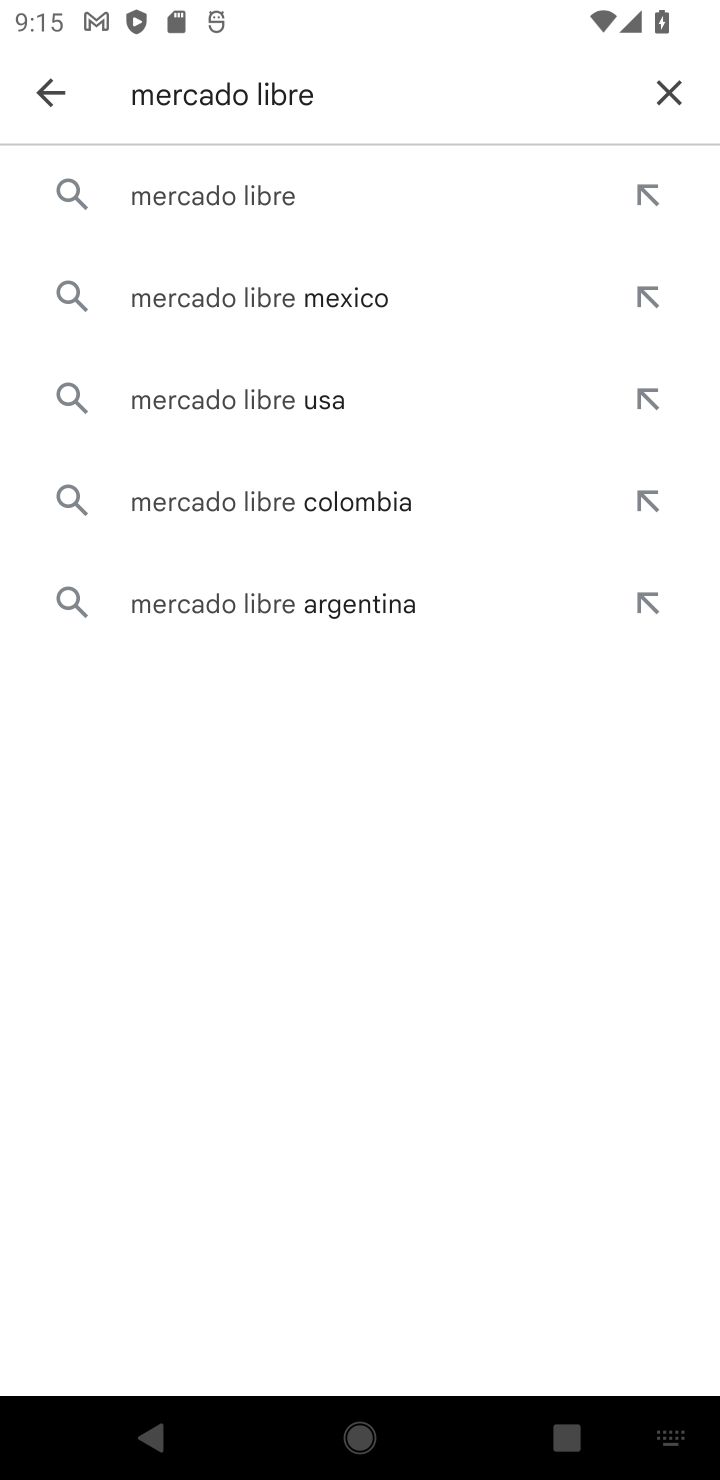
Step 32: click (227, 208)
Your task to perform on an android device: install app "Mercado Libre" Image 33: 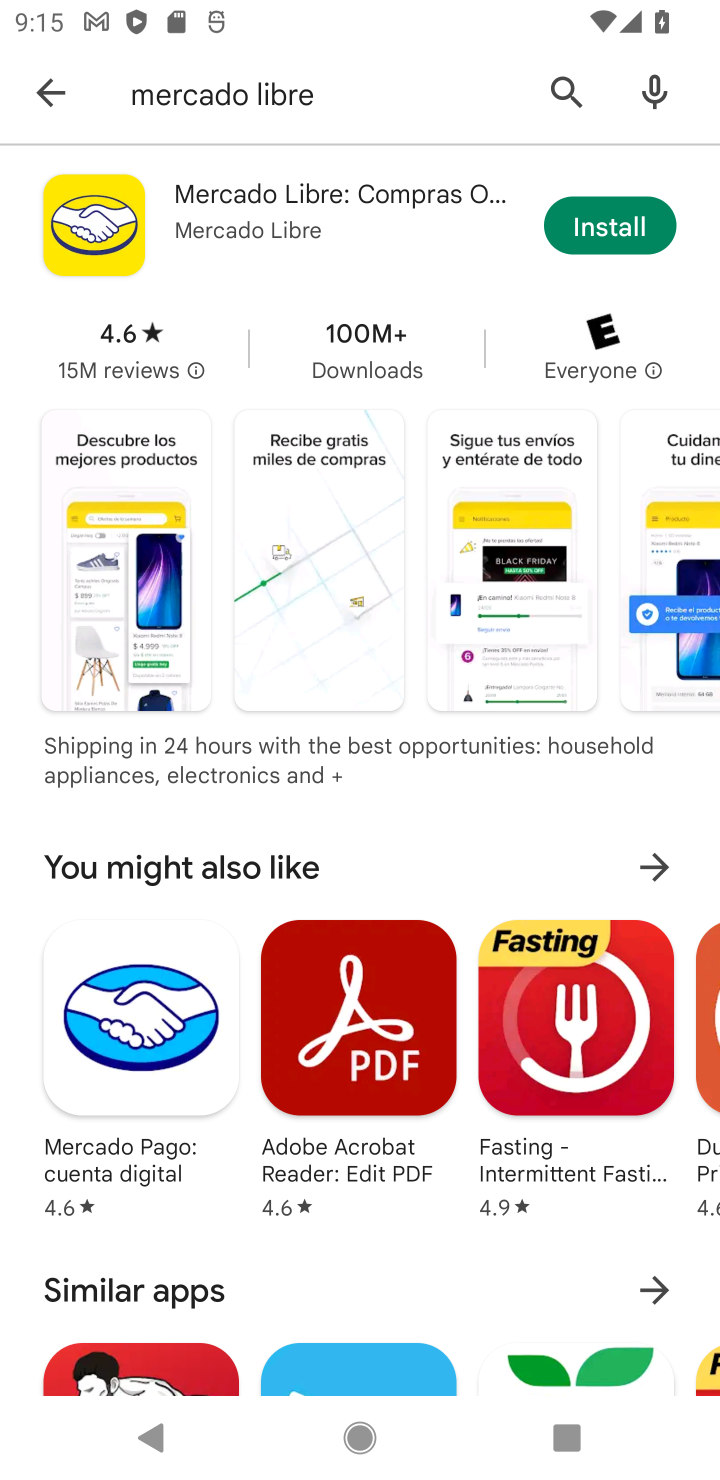
Step 33: click (573, 200)
Your task to perform on an android device: install app "Mercado Libre" Image 34: 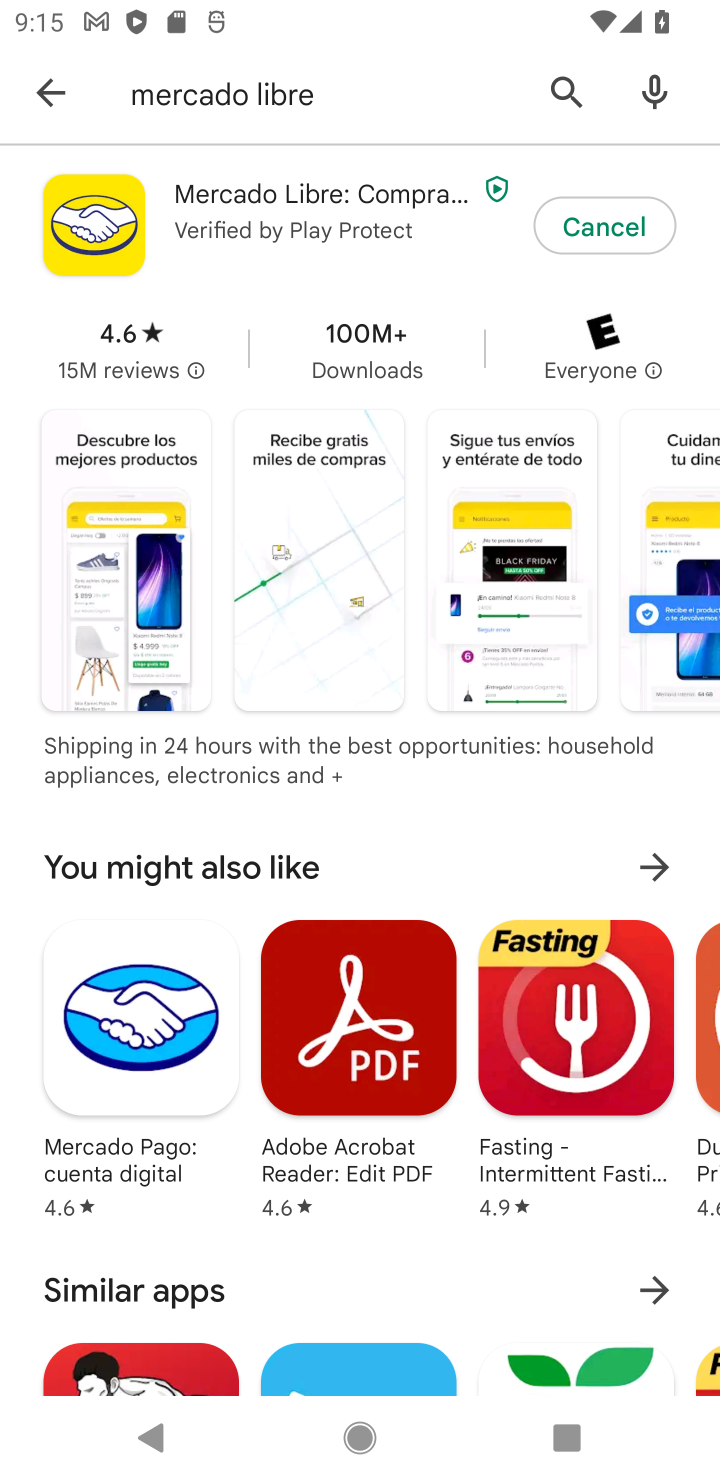
Step 34: click (584, 215)
Your task to perform on an android device: install app "Mercado Libre" Image 35: 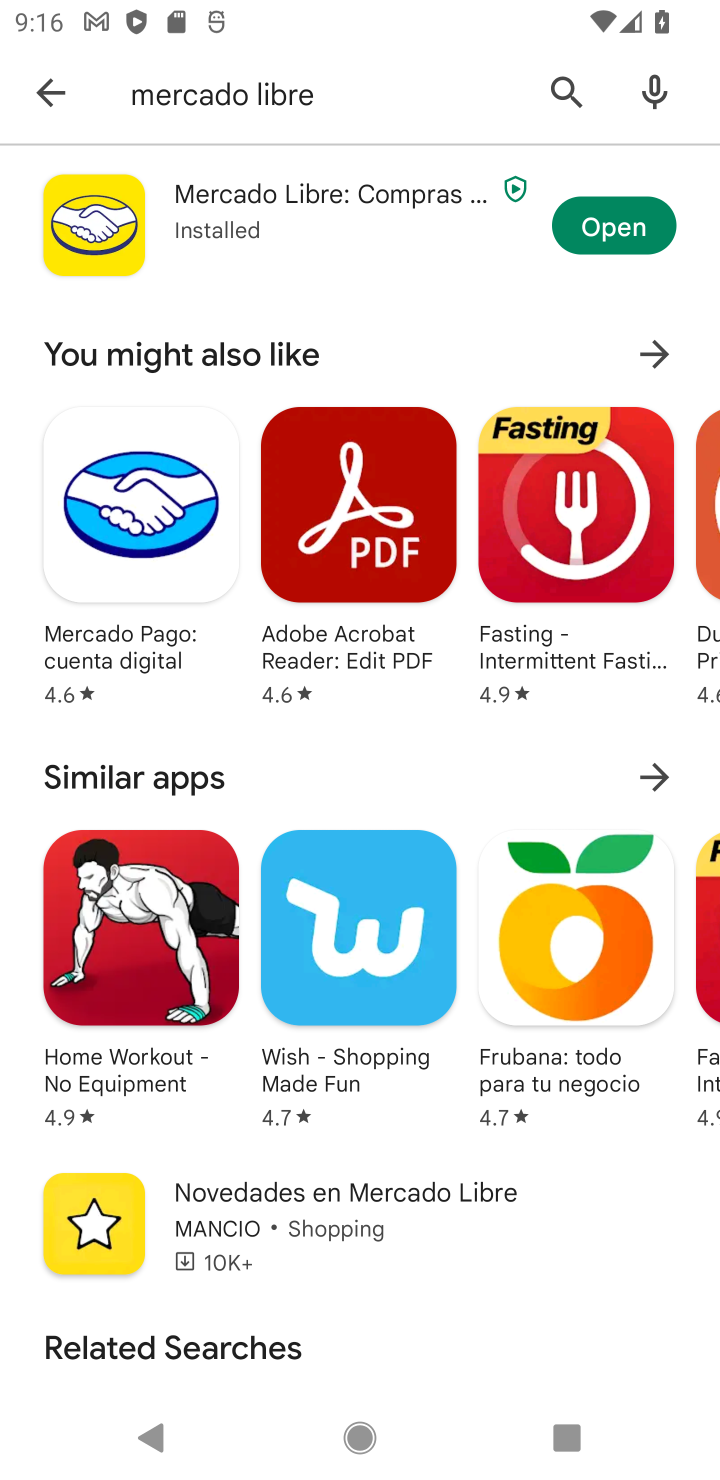
Step 35: click (584, 211)
Your task to perform on an android device: install app "Mercado Libre" Image 36: 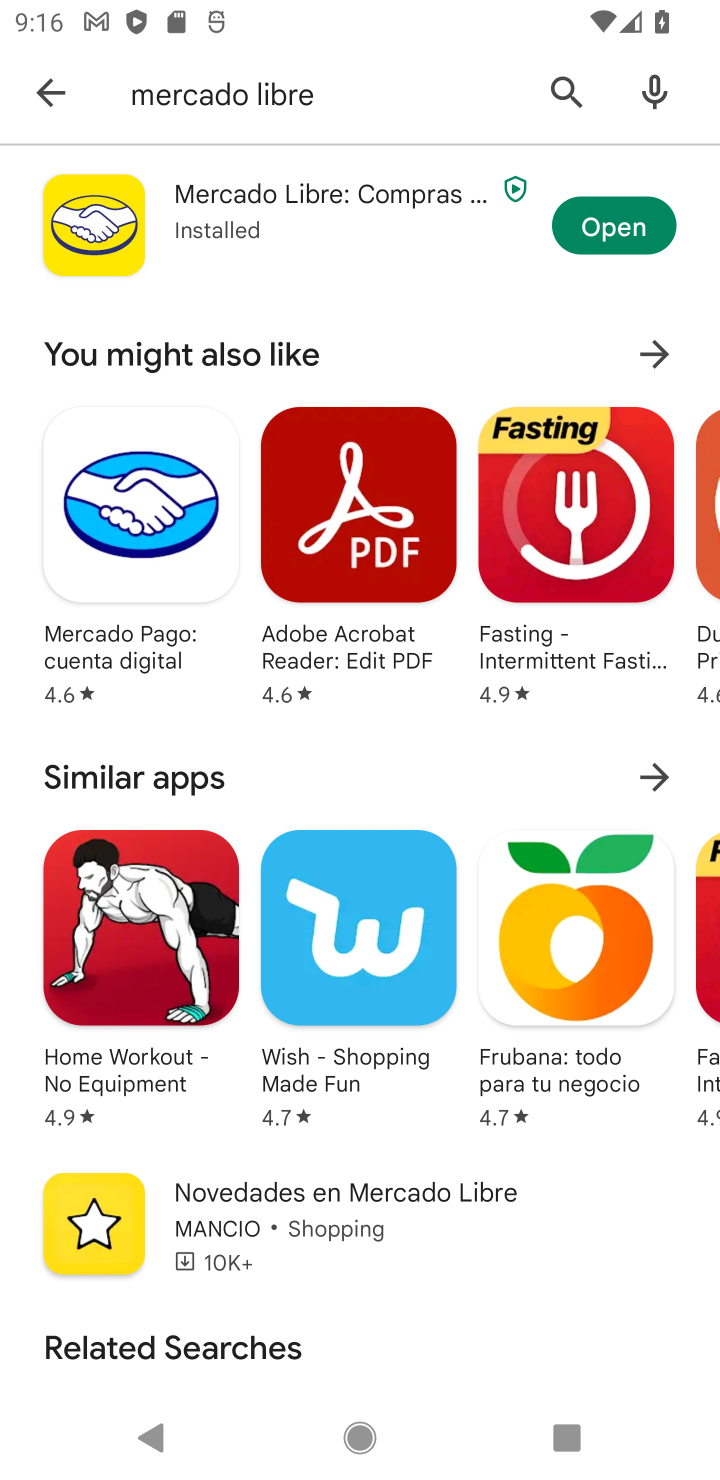
Step 36: click (600, 213)
Your task to perform on an android device: install app "Mercado Libre" Image 37: 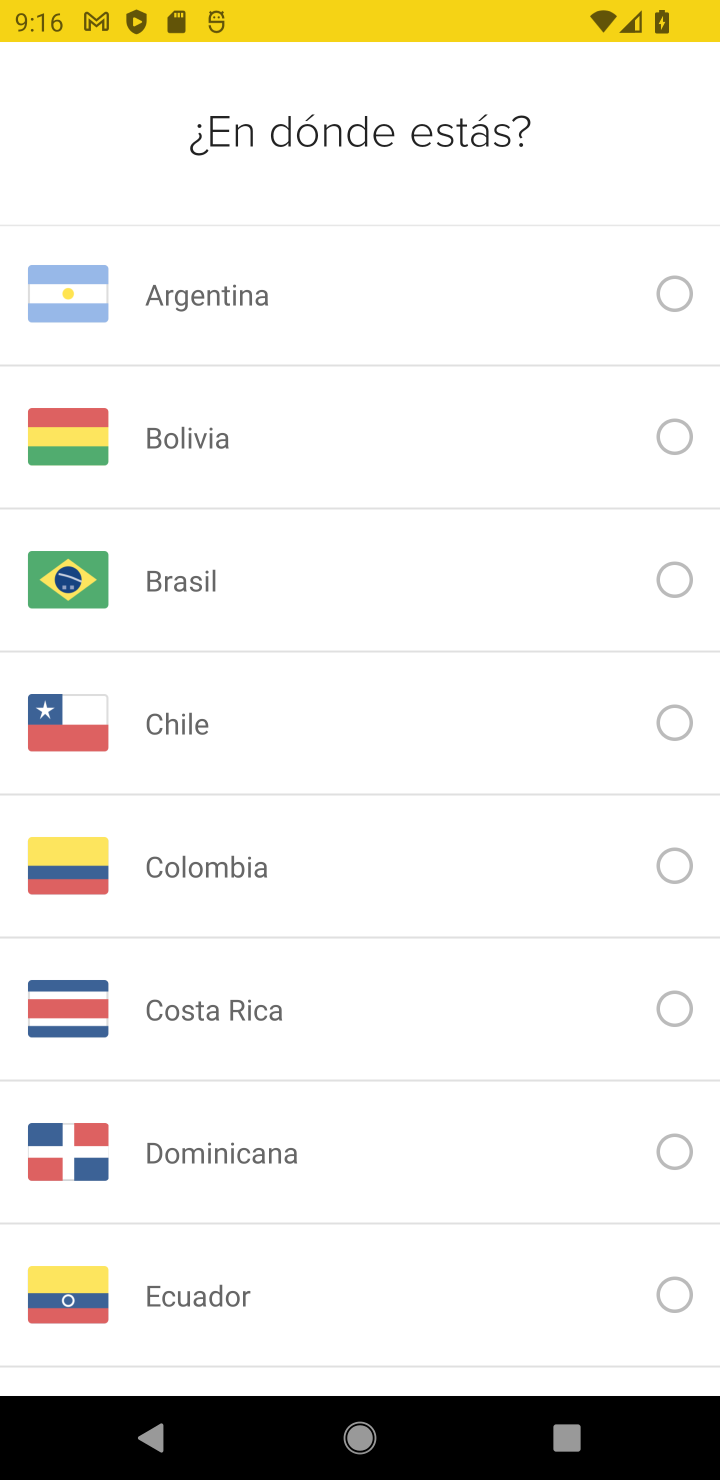
Step 37: press back button
Your task to perform on an android device: install app "Mercado Libre" Image 38: 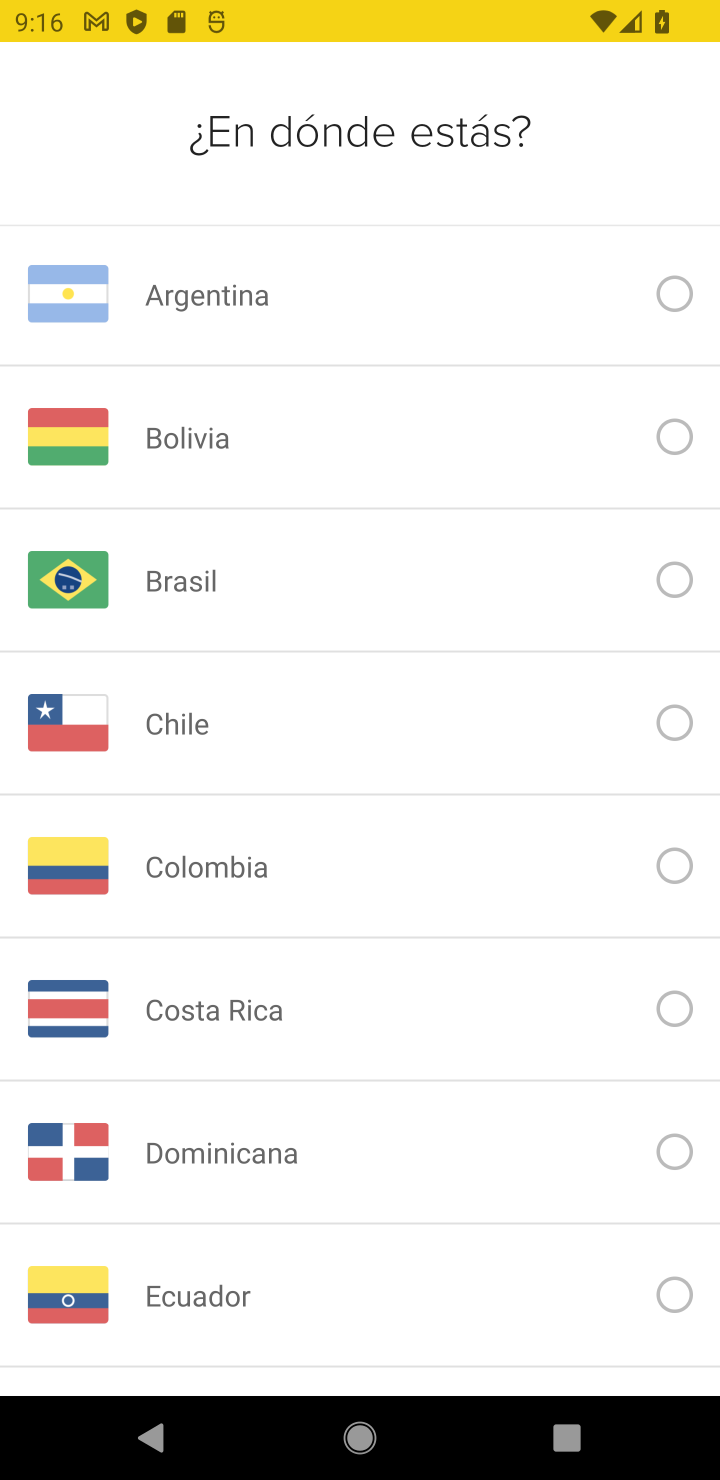
Step 38: press back button
Your task to perform on an android device: install app "Mercado Libre" Image 39: 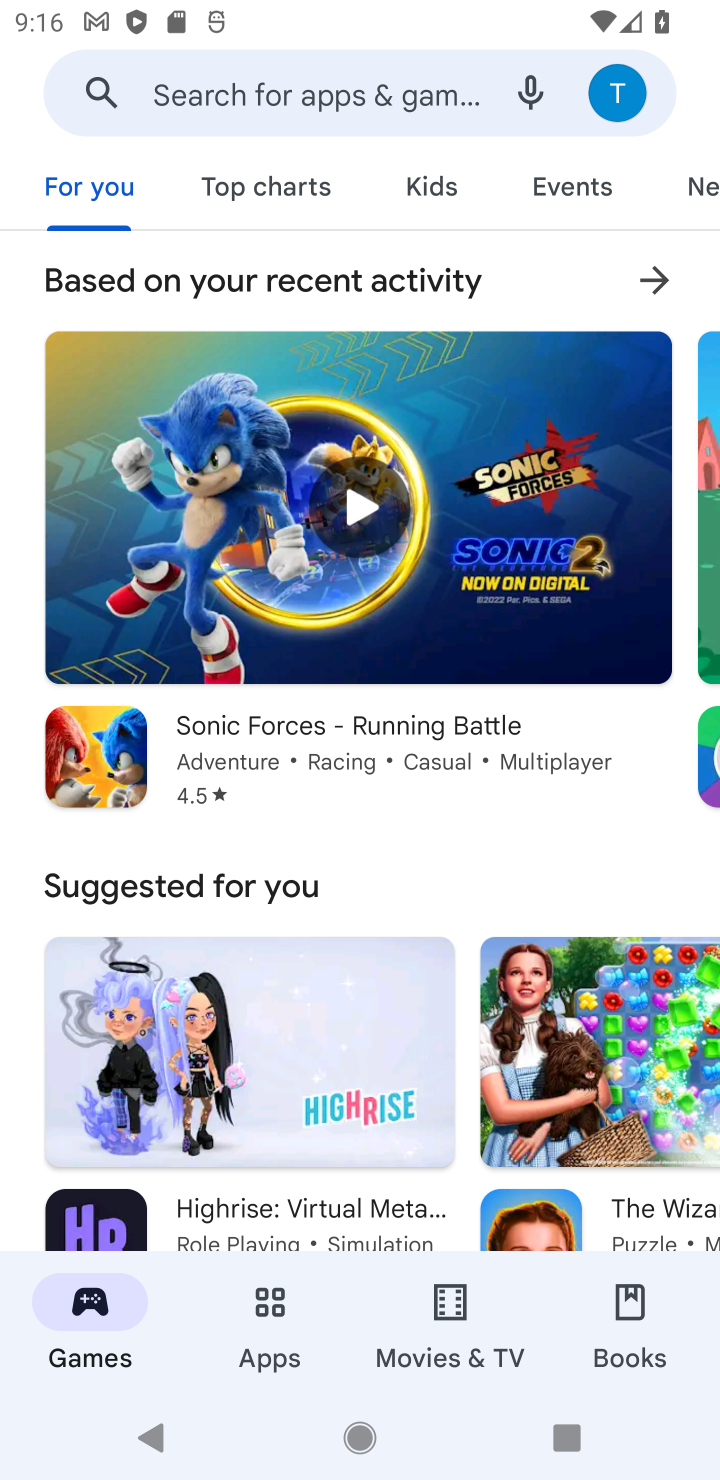
Step 39: click (237, 94)
Your task to perform on an android device: install app "Mercado Libre" Image 40: 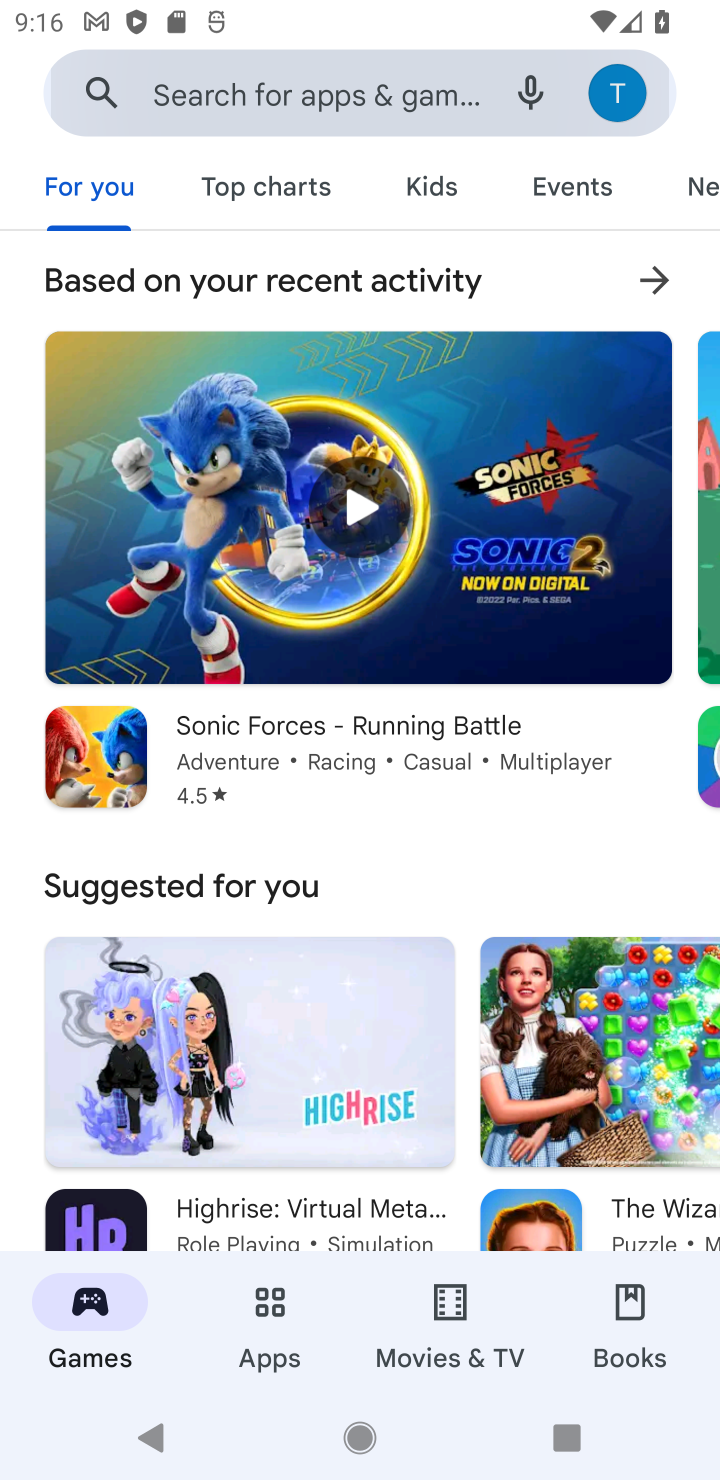
Step 40: click (209, 96)
Your task to perform on an android device: install app "Mercado Libre" Image 41: 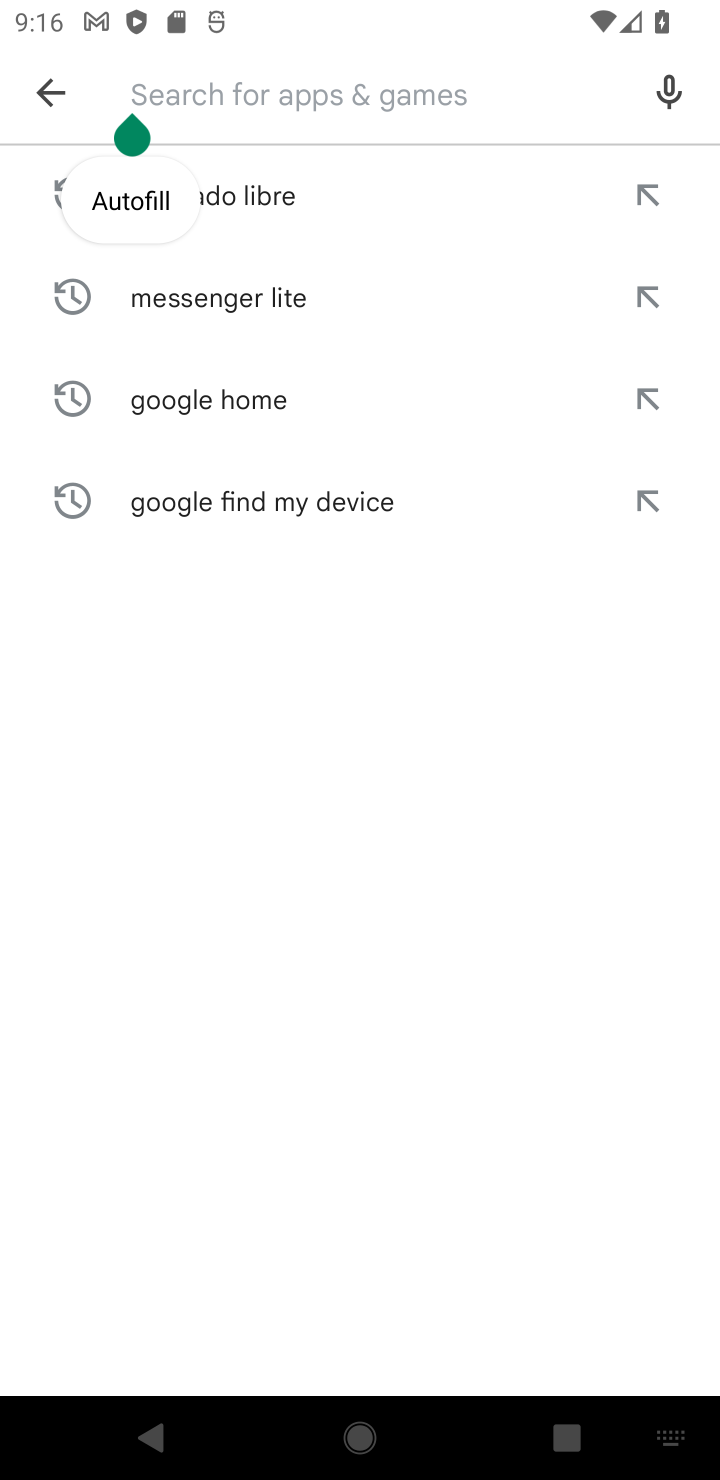
Step 41: click (277, 190)
Your task to perform on an android device: install app "Mercado Libre" Image 42: 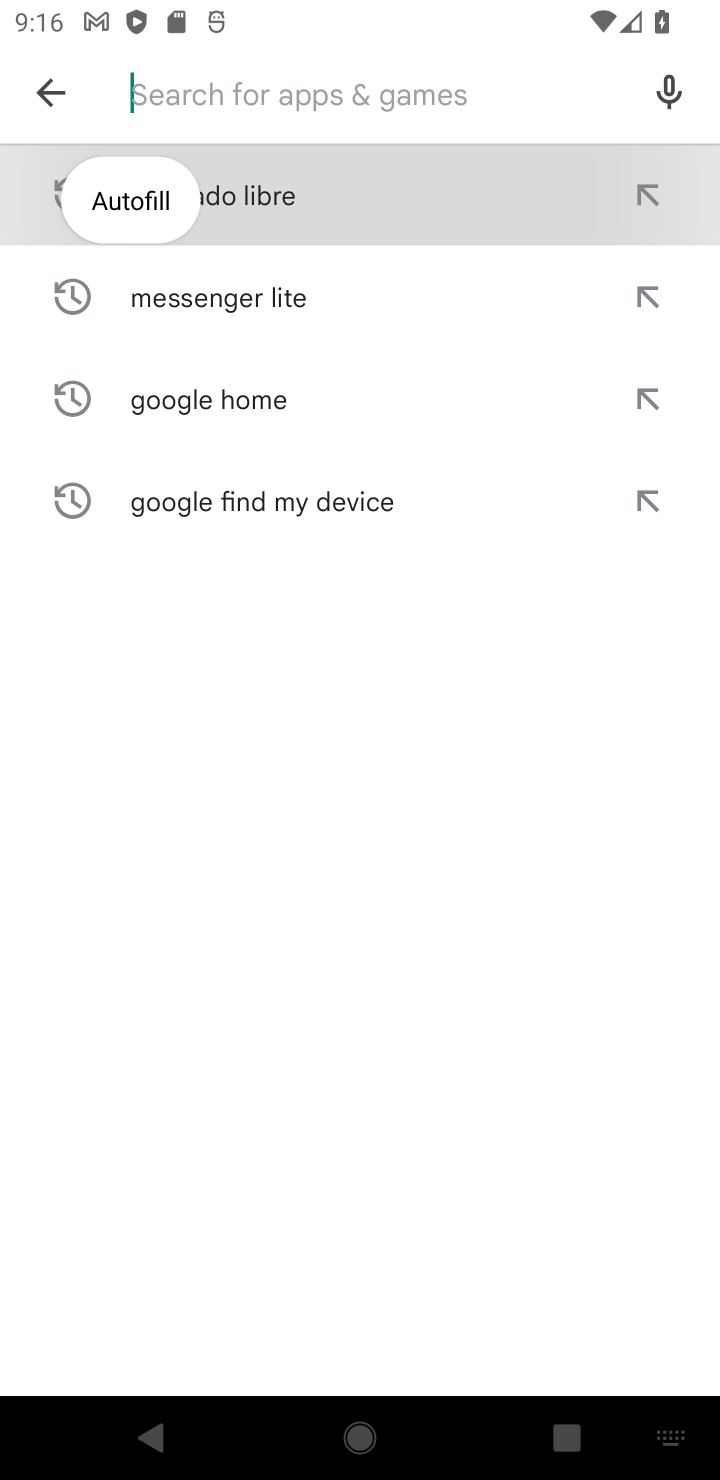
Step 42: click (286, 190)
Your task to perform on an android device: install app "Mercado Libre" Image 43: 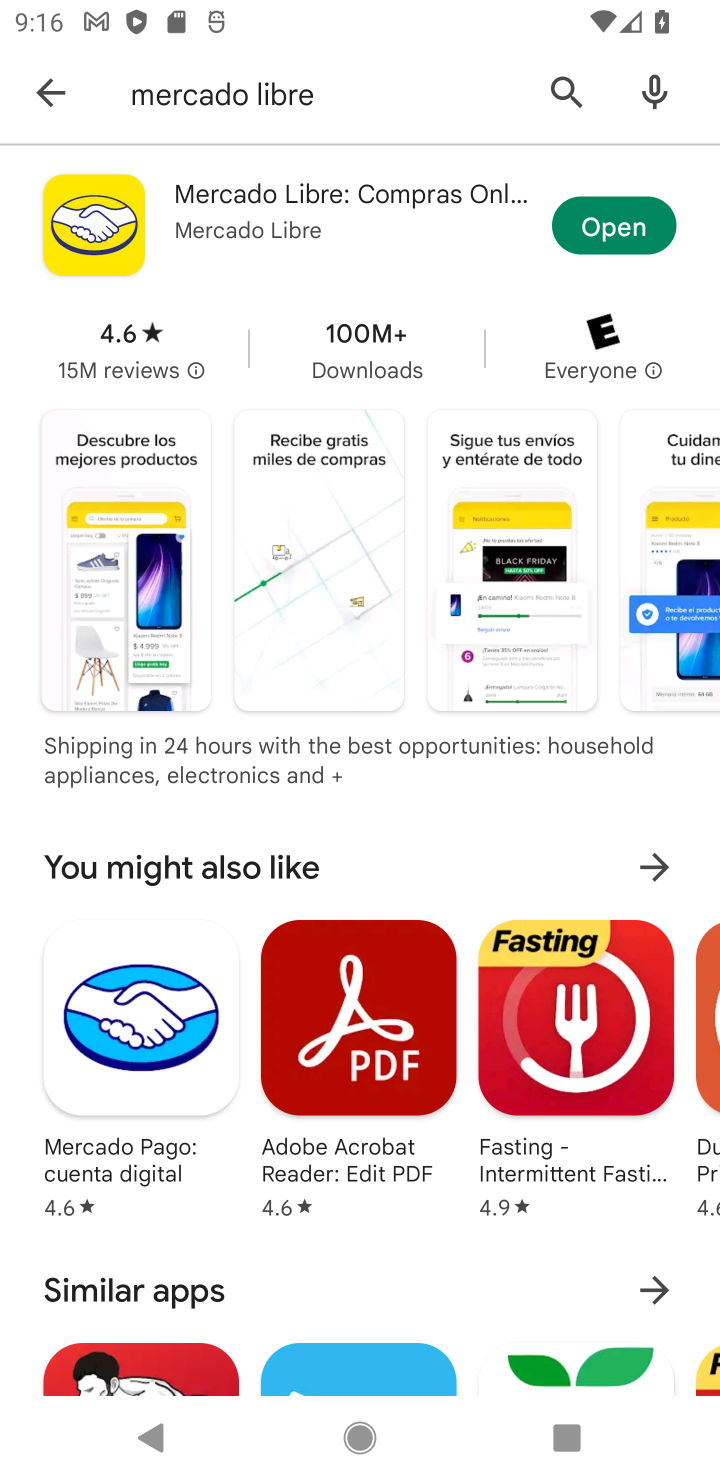
Step 43: click (610, 215)
Your task to perform on an android device: install app "Mercado Libre" Image 44: 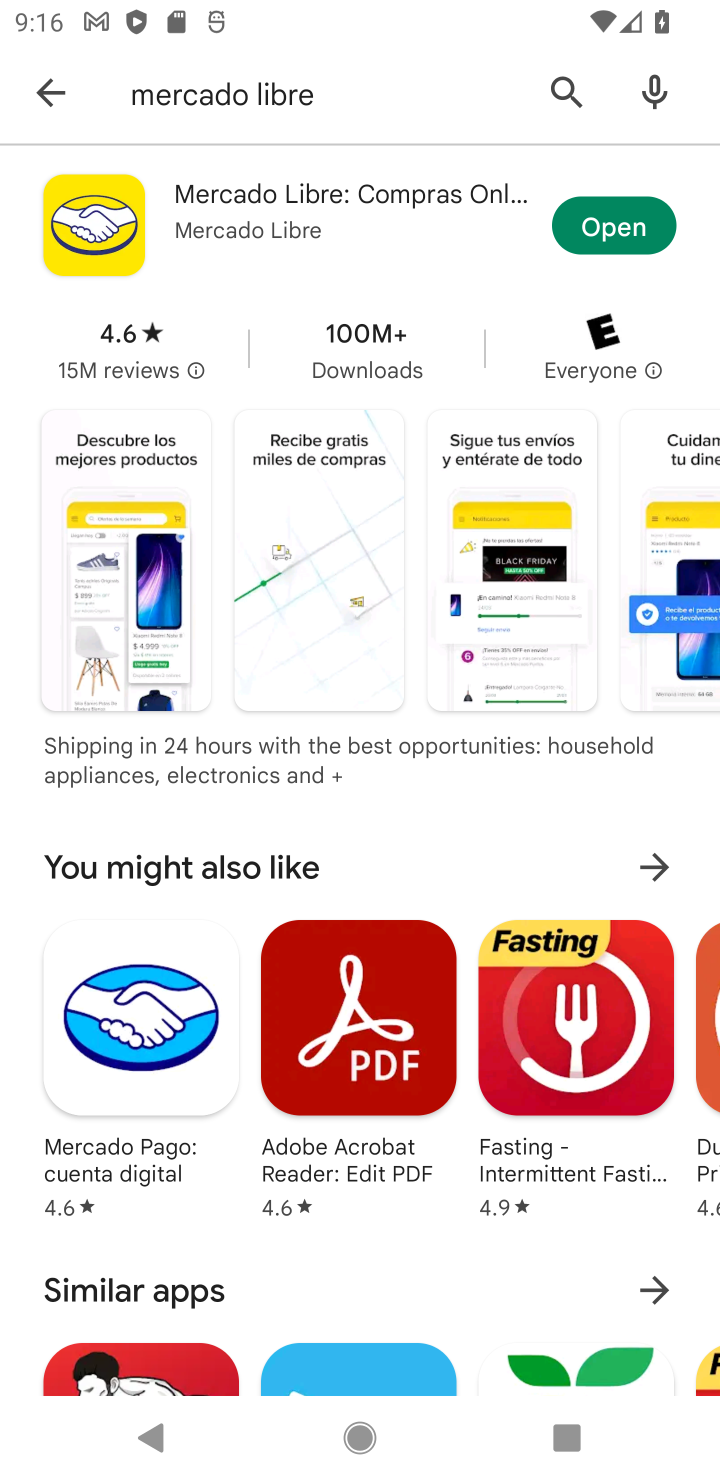
Step 44: click (610, 215)
Your task to perform on an android device: install app "Mercado Libre" Image 45: 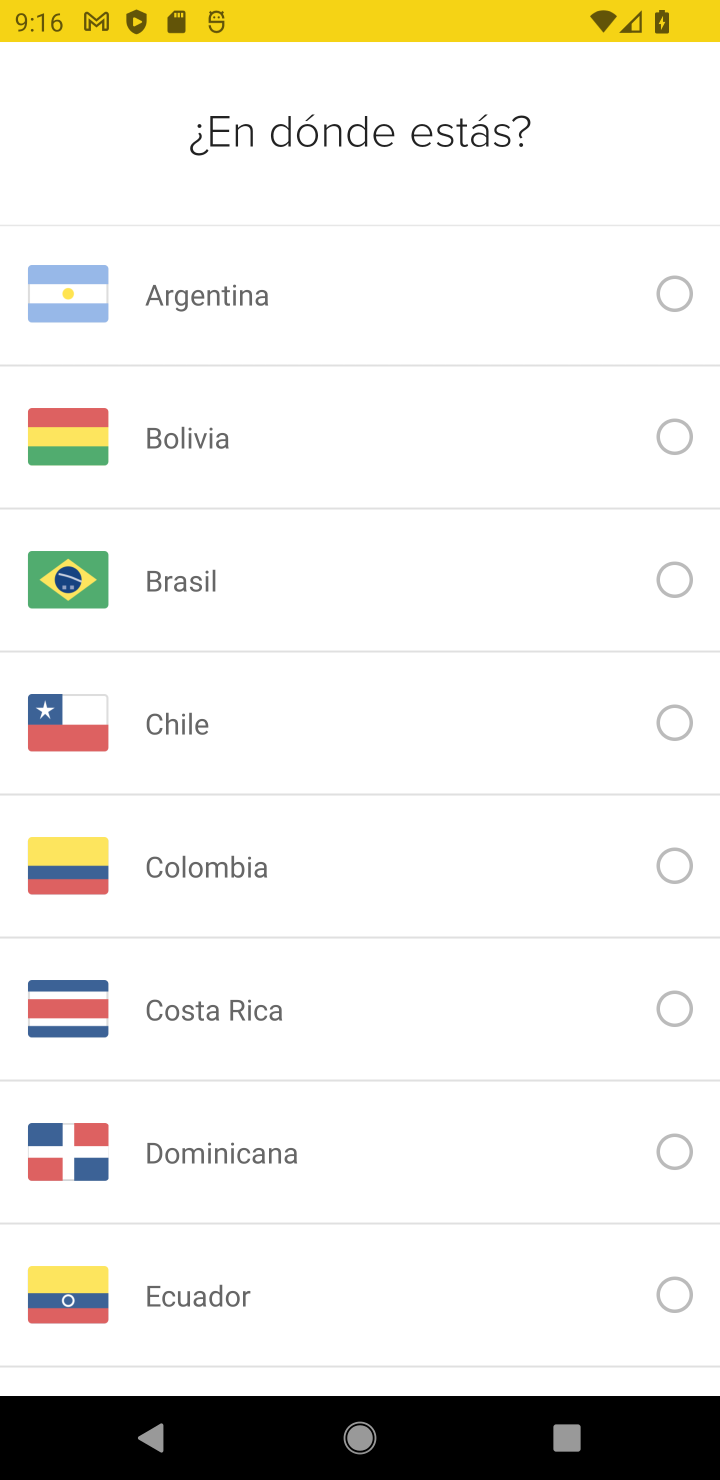
Step 45: press back button
Your task to perform on an android device: install app "Mercado Libre" Image 46: 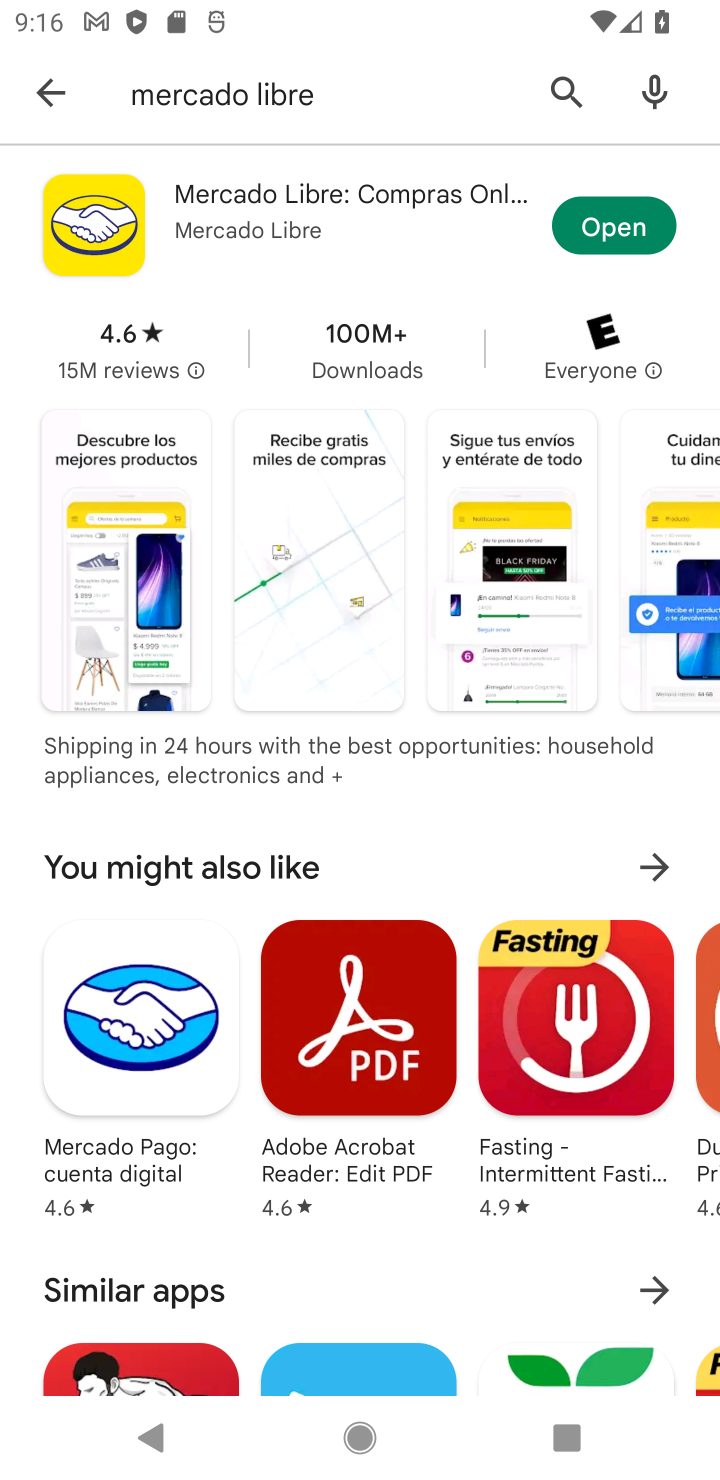
Step 46: click (603, 230)
Your task to perform on an android device: install app "Mercado Libre" Image 47: 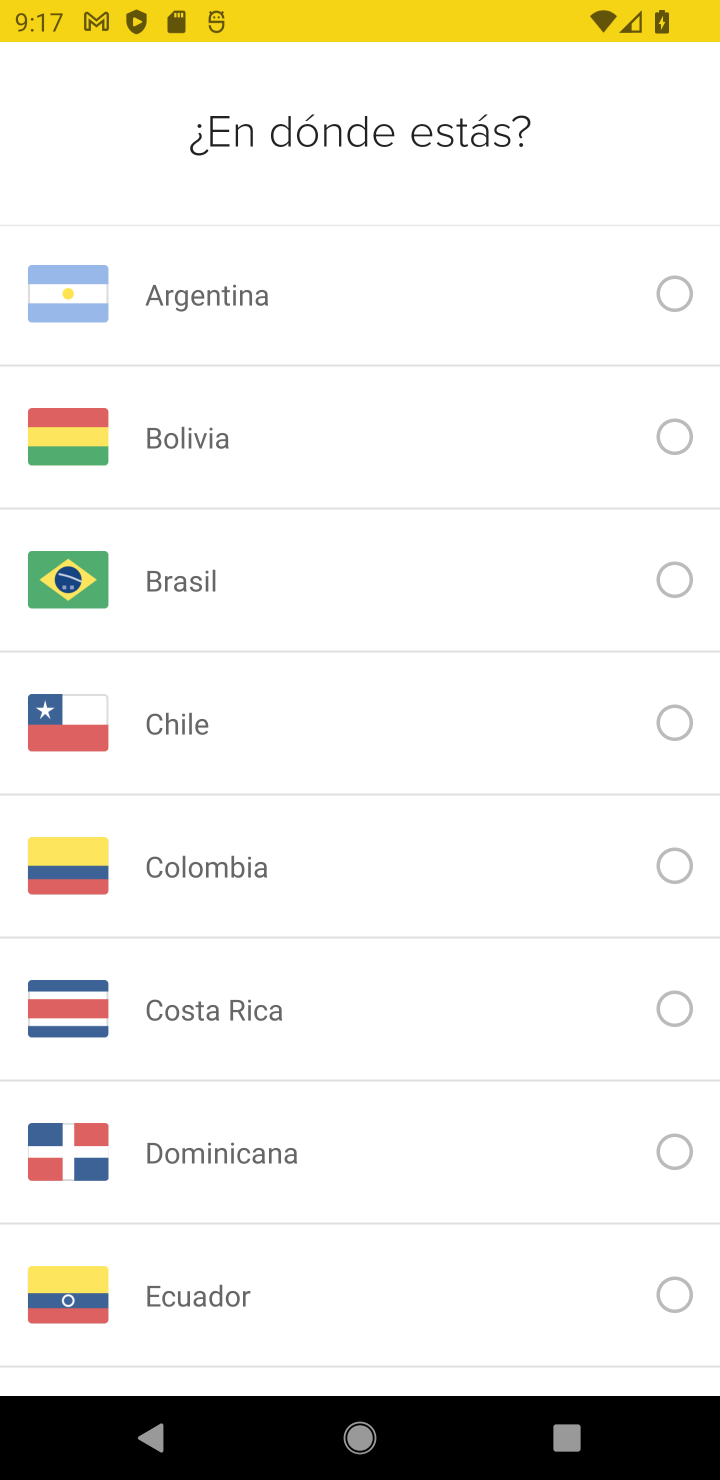
Step 47: drag from (355, 1108) to (374, 445)
Your task to perform on an android device: install app "Mercado Libre" Image 48: 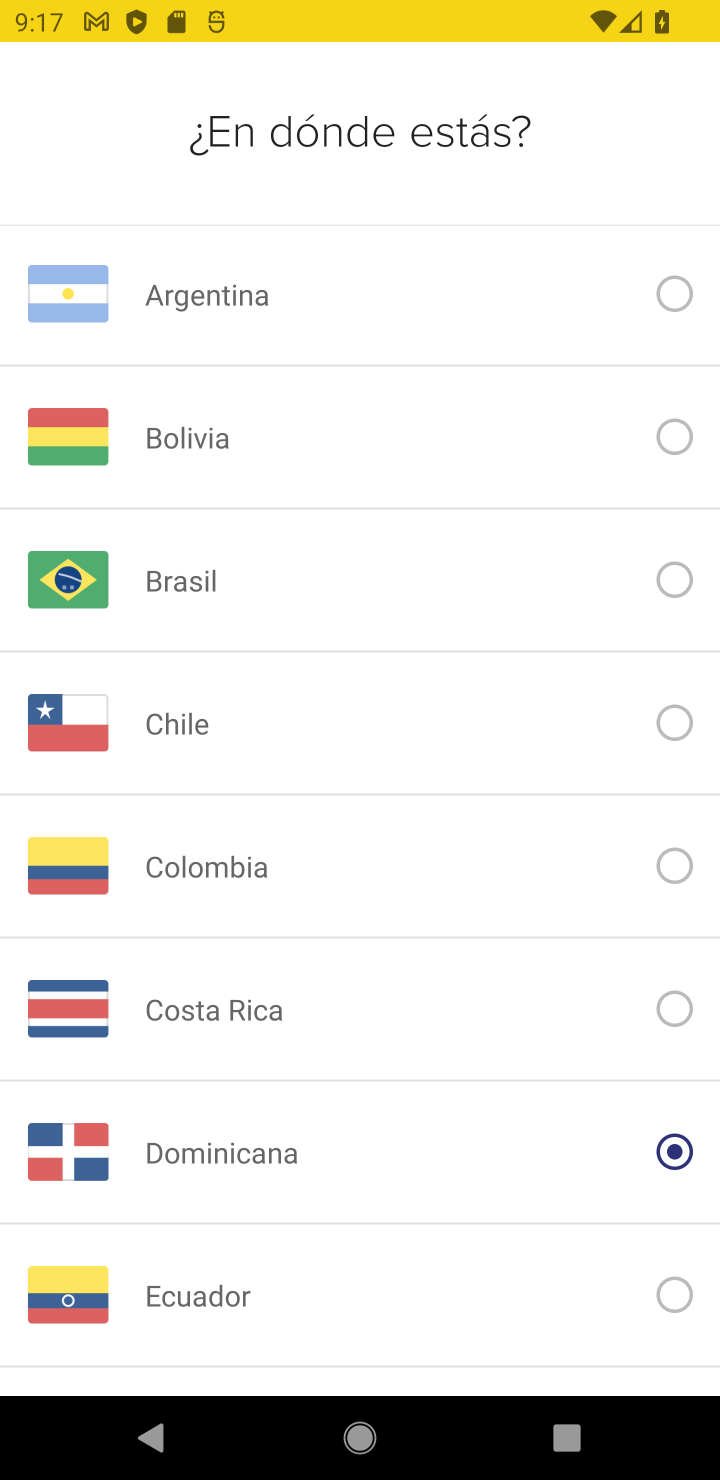
Step 48: drag from (424, 666) to (215, 163)
Your task to perform on an android device: install app "Mercado Libre" Image 49: 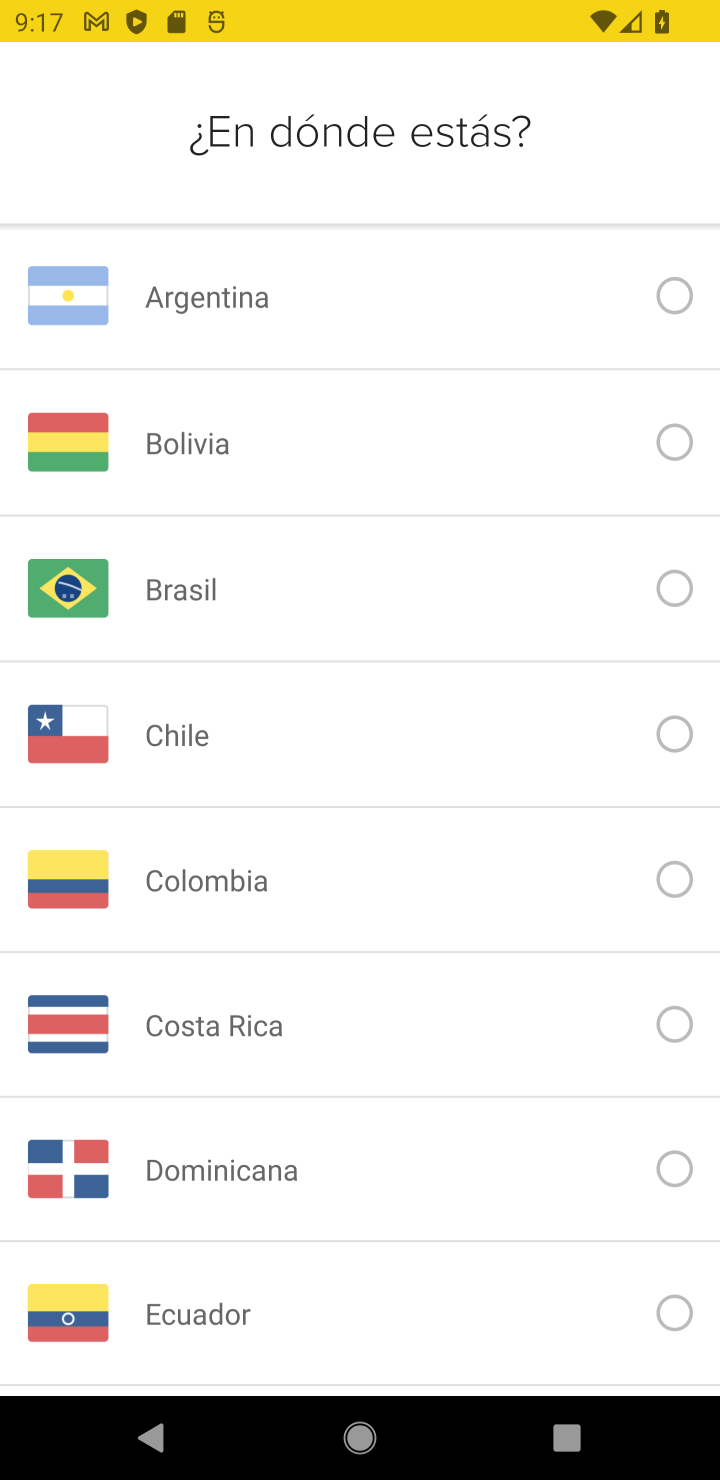
Step 49: drag from (335, 693) to (159, 360)
Your task to perform on an android device: install app "Mercado Libre" Image 50: 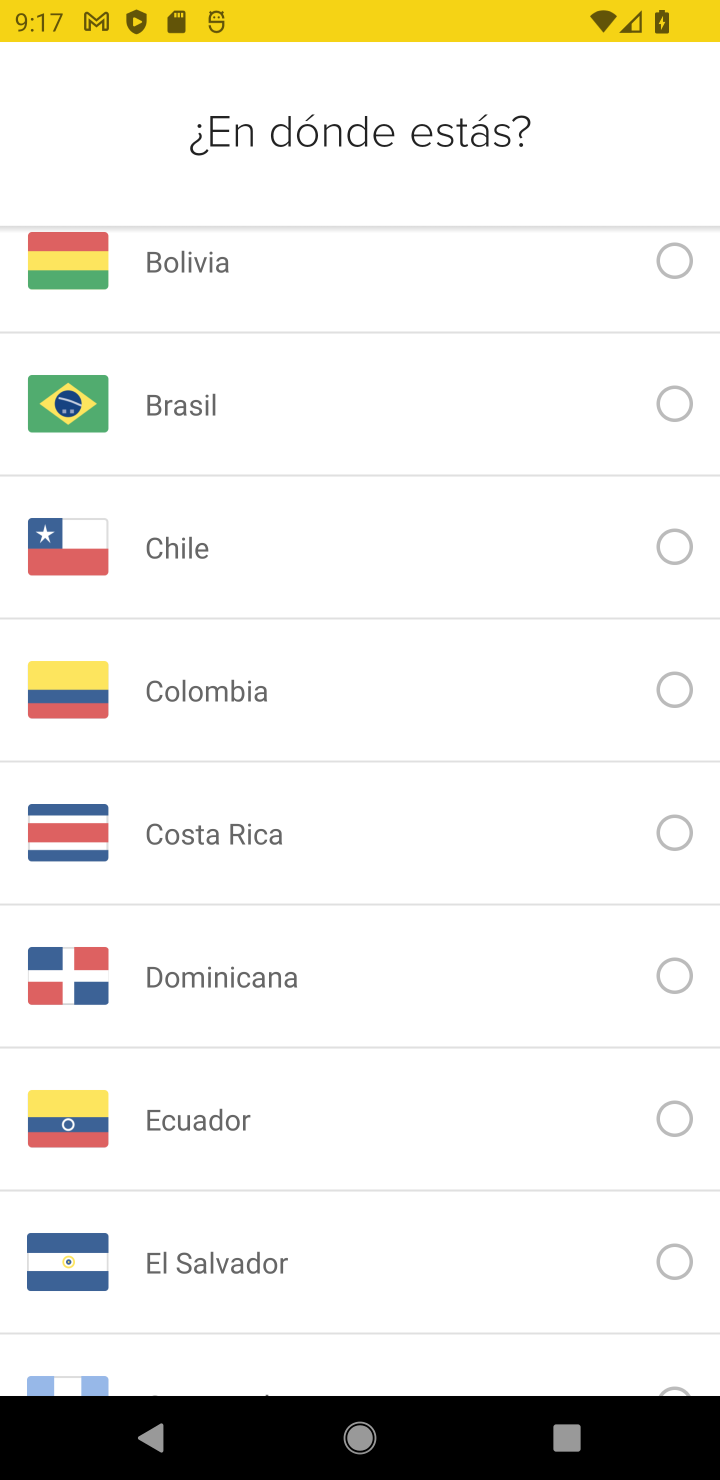
Step 50: drag from (203, 888) to (209, 511)
Your task to perform on an android device: install app "Mercado Libre" Image 51: 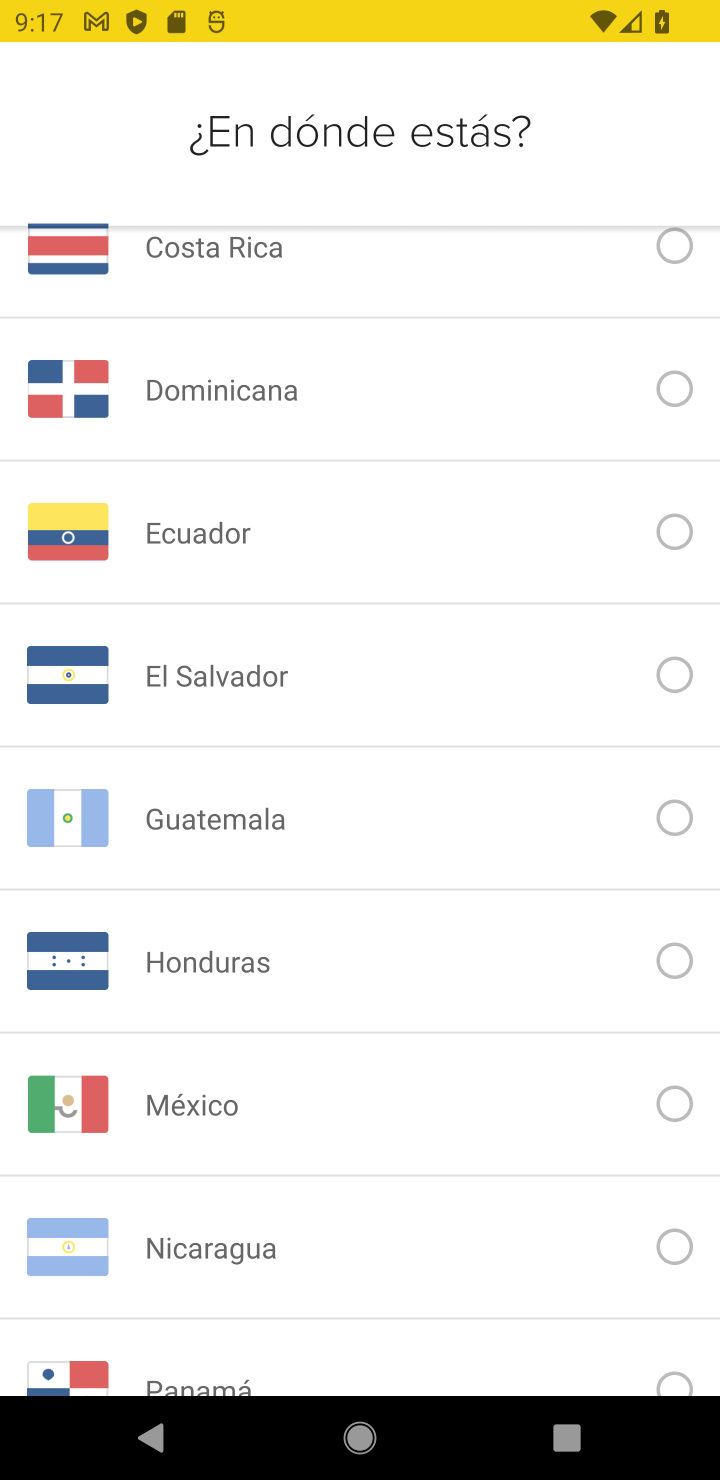
Step 51: drag from (233, 1040) to (226, 376)
Your task to perform on an android device: install app "Mercado Libre" Image 52: 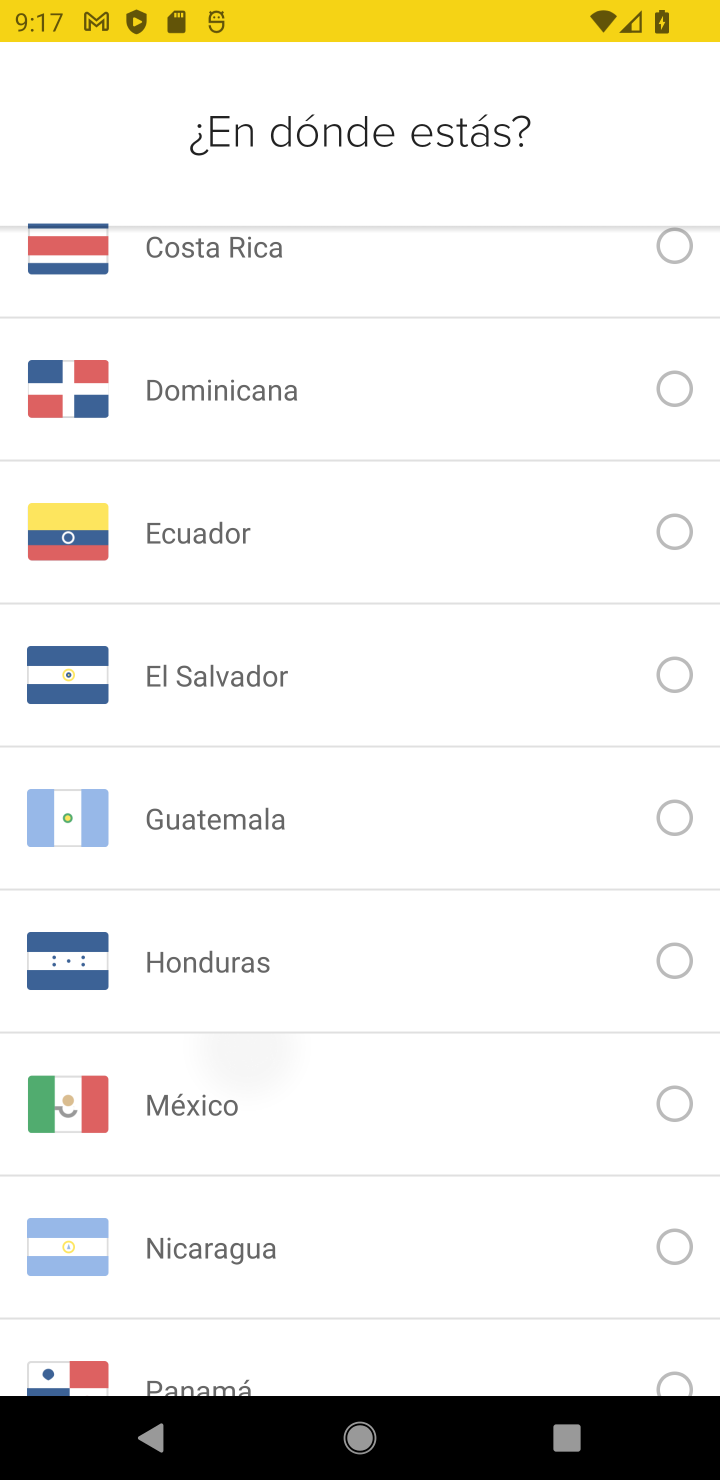
Step 52: drag from (301, 1002) to (249, 595)
Your task to perform on an android device: install app "Mercado Libre" Image 53: 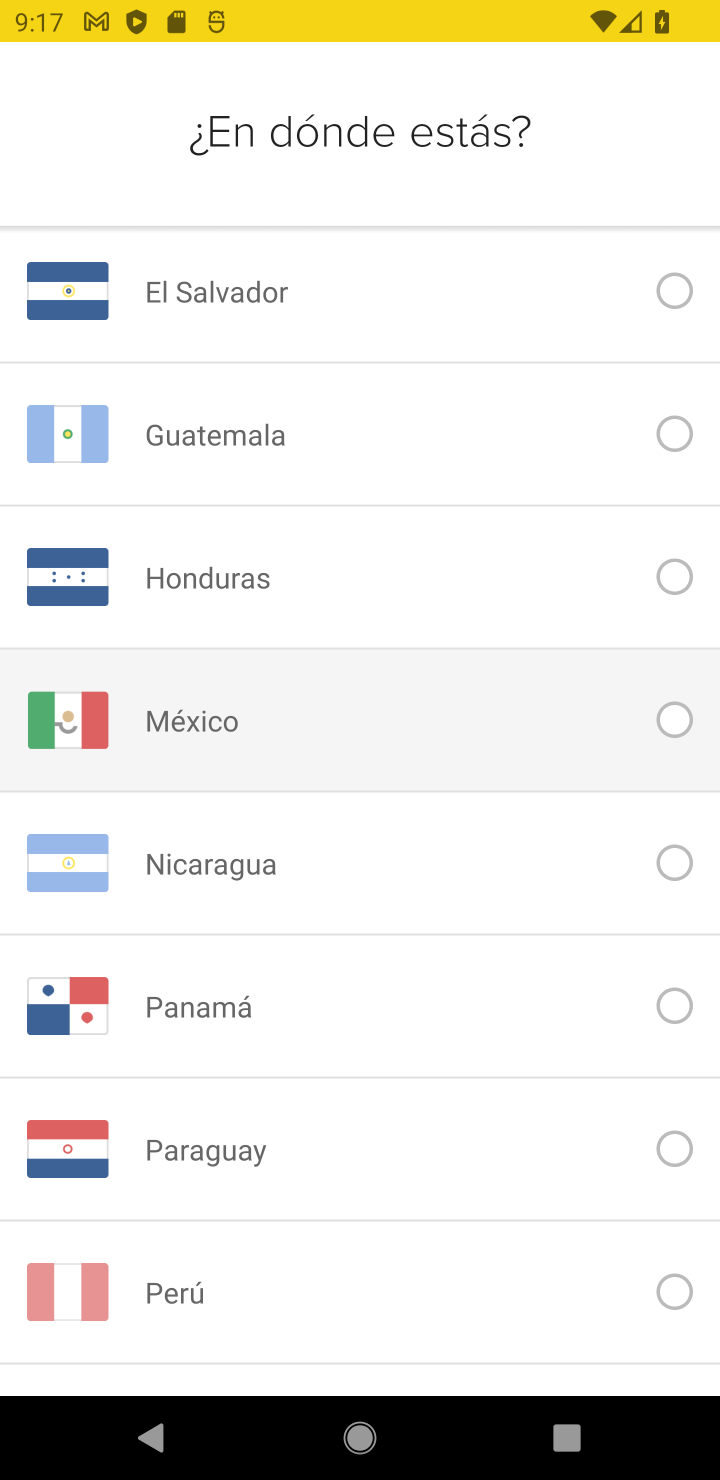
Step 53: drag from (286, 861) to (276, 330)
Your task to perform on an android device: install app "Mercado Libre" Image 54: 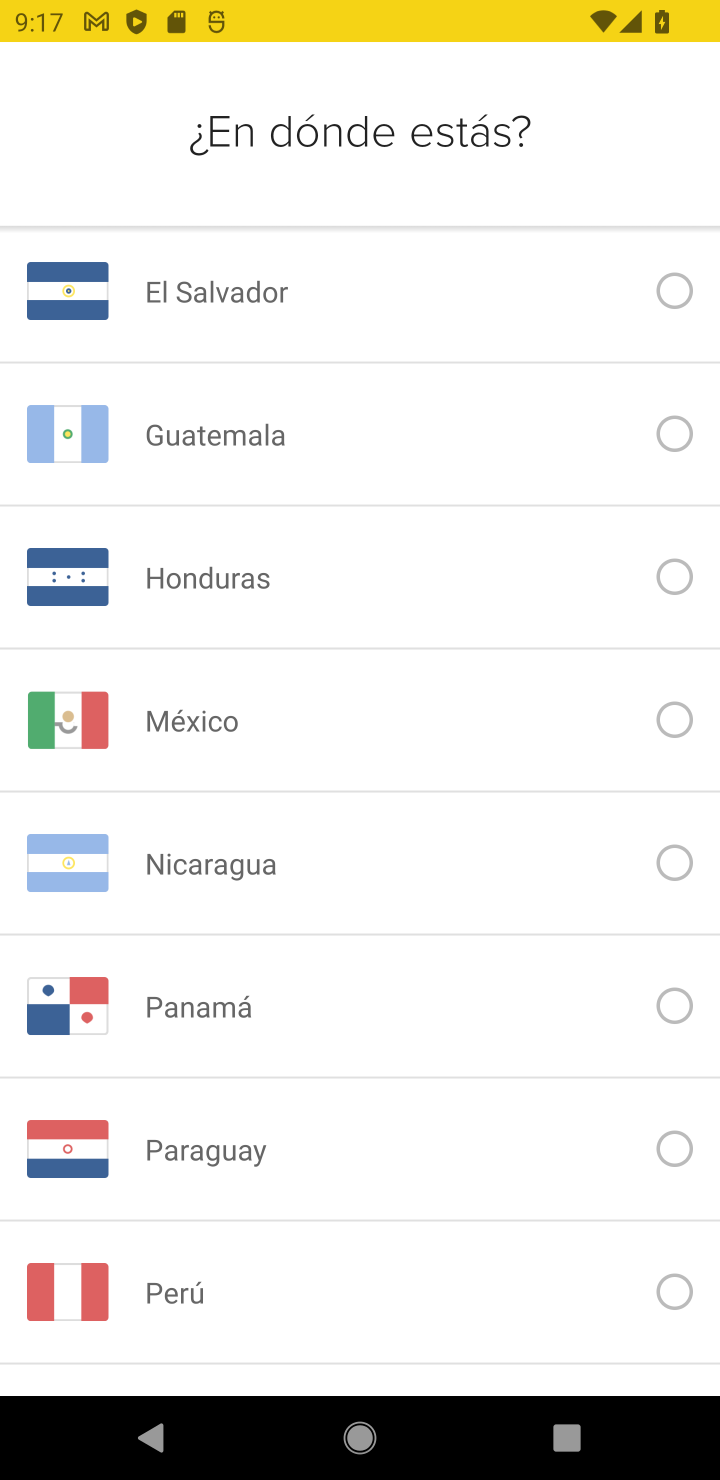
Step 54: click (350, 700)
Your task to perform on an android device: install app "Mercado Libre" Image 55: 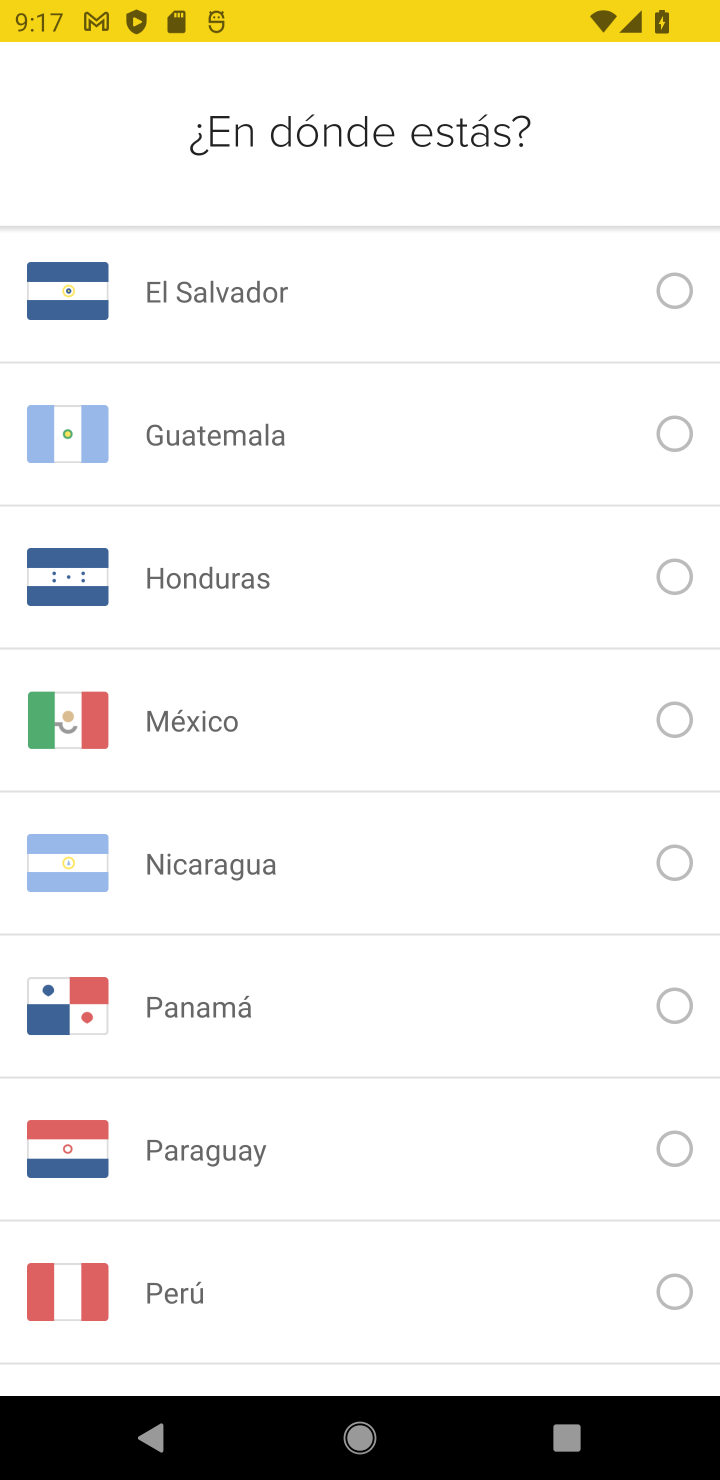
Step 55: click (665, 742)
Your task to perform on an android device: install app "Mercado Libre" Image 56: 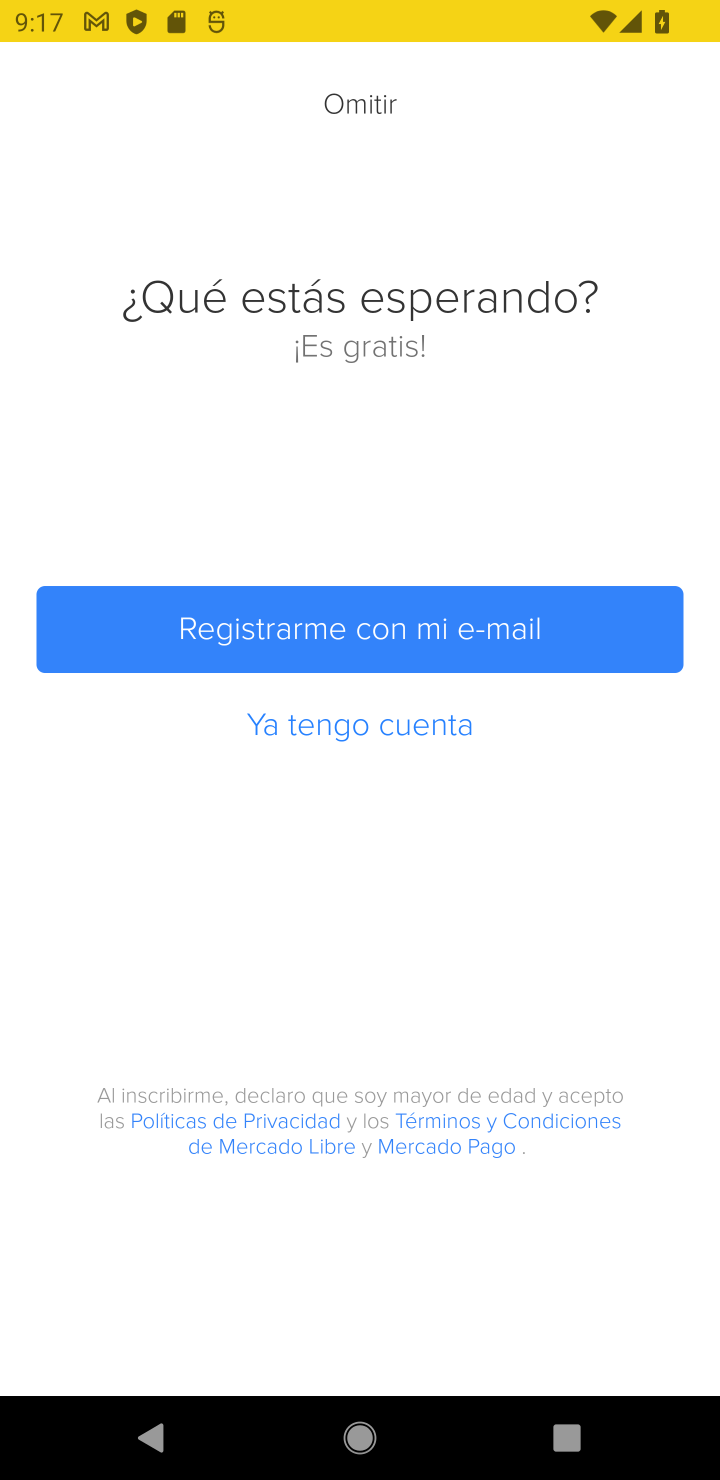
Step 56: task complete